Your task to perform on an android device: Search for "razer thresher" on target, select the first entry, and add it to the cart. Image 0: 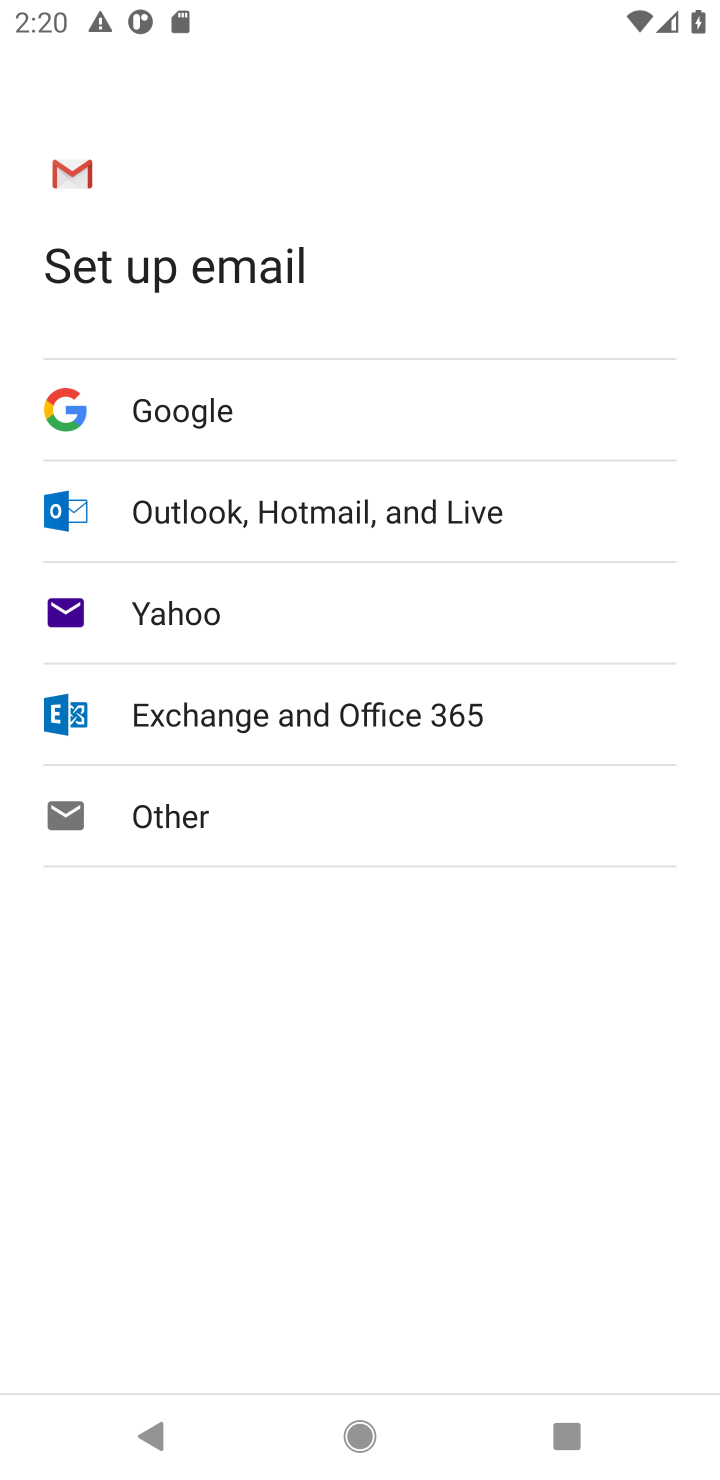
Step 0: press home button
Your task to perform on an android device: Search for "razer thresher" on target, select the first entry, and add it to the cart. Image 1: 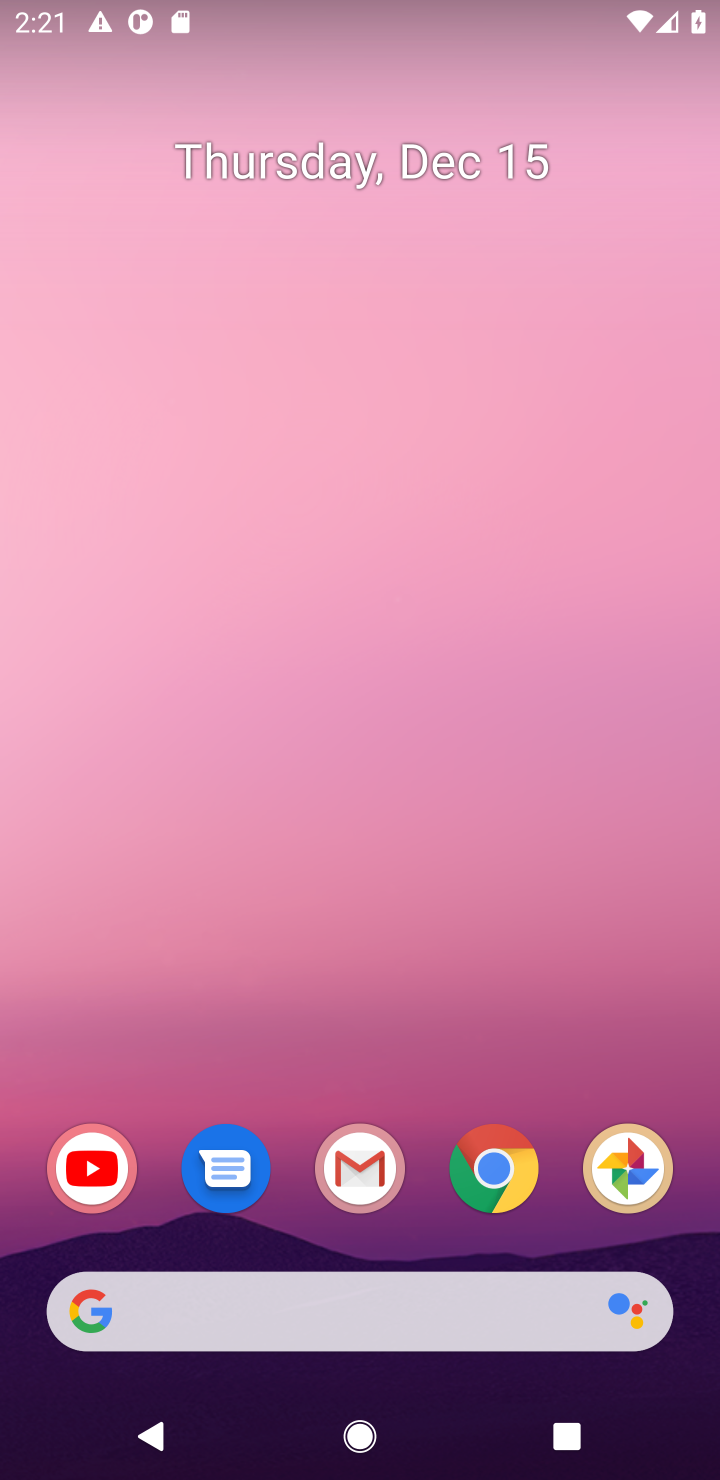
Step 1: click (505, 1194)
Your task to perform on an android device: Search for "razer thresher" on target, select the first entry, and add it to the cart. Image 2: 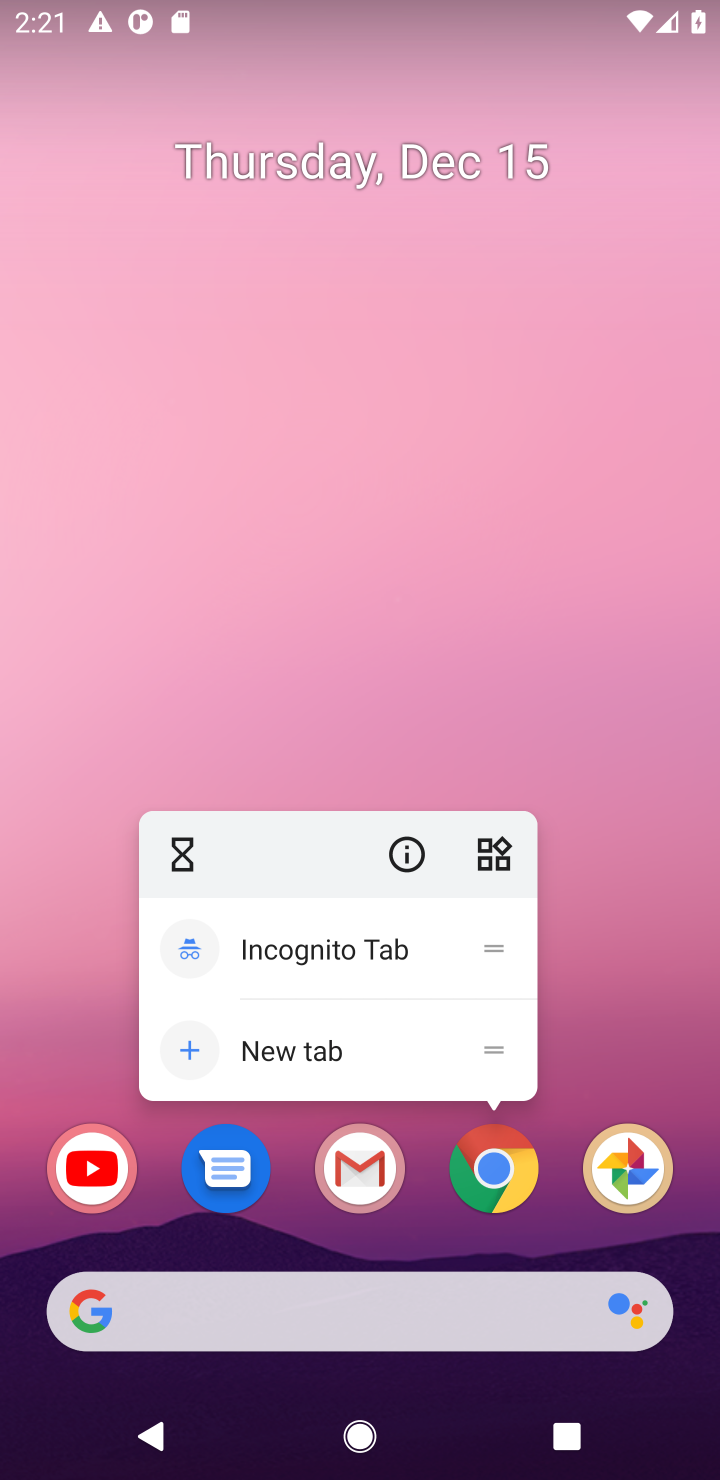
Step 2: click (492, 1180)
Your task to perform on an android device: Search for "razer thresher" on target, select the first entry, and add it to the cart. Image 3: 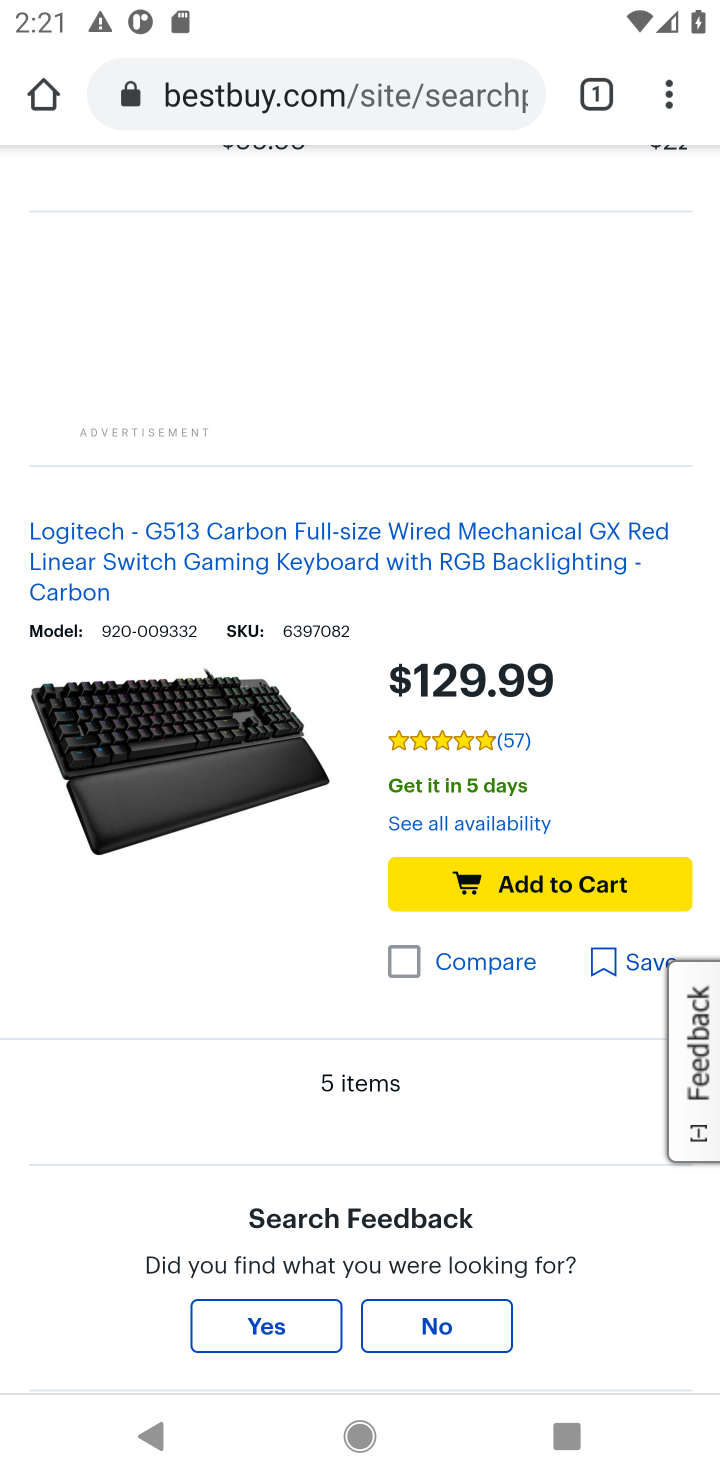
Step 3: click (389, 90)
Your task to perform on an android device: Search for "razer thresher" on target, select the first entry, and add it to the cart. Image 4: 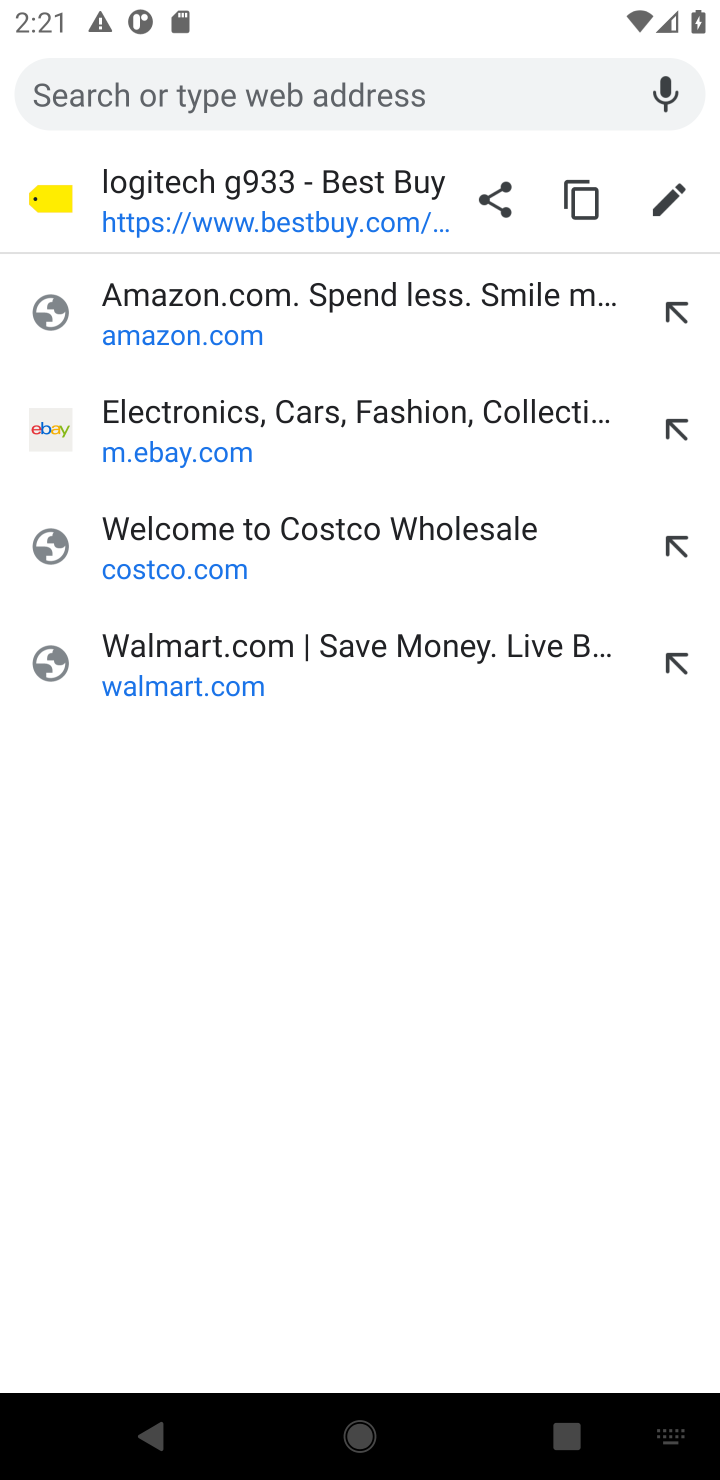
Step 4: press enter
Your task to perform on an android device: Search for "razer thresher" on target, select the first entry, and add it to the cart. Image 5: 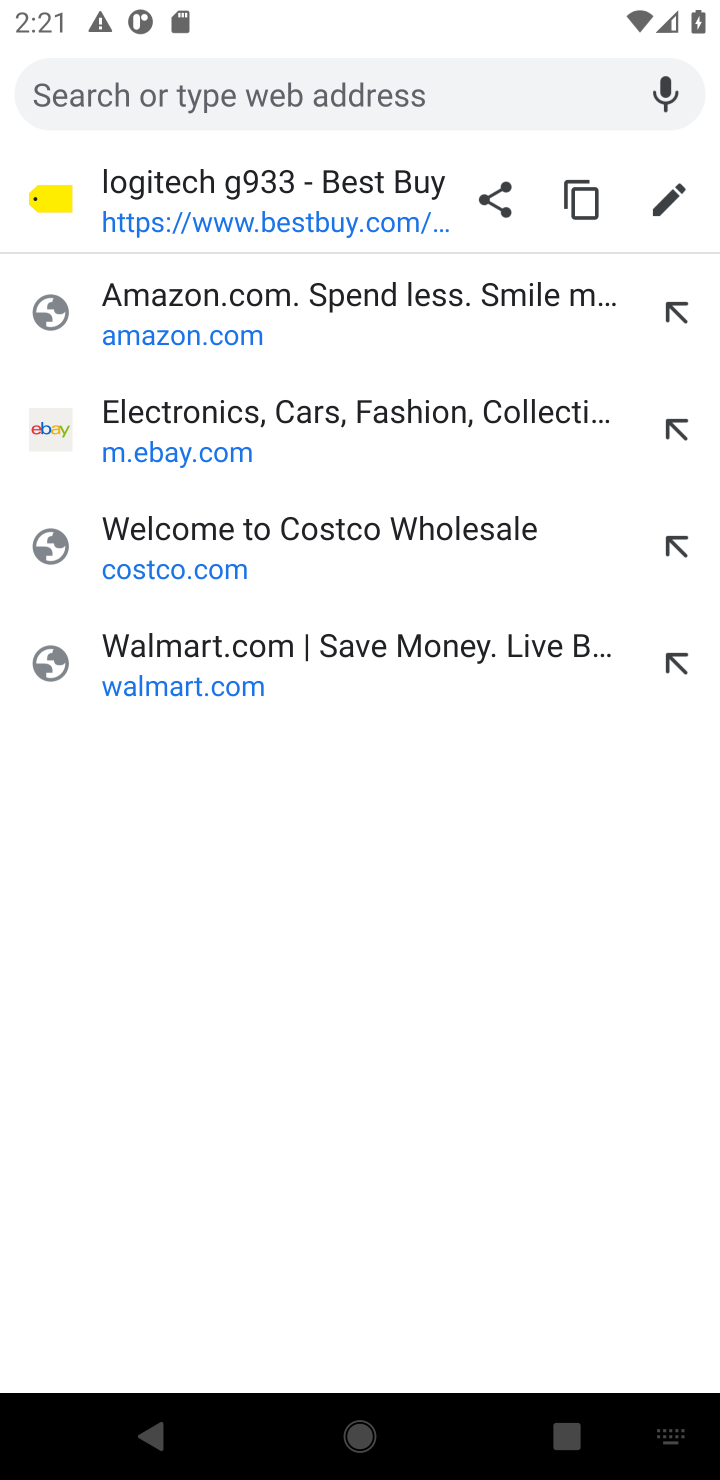
Step 5: type "target"
Your task to perform on an android device: Search for "razer thresher" on target, select the first entry, and add it to the cart. Image 6: 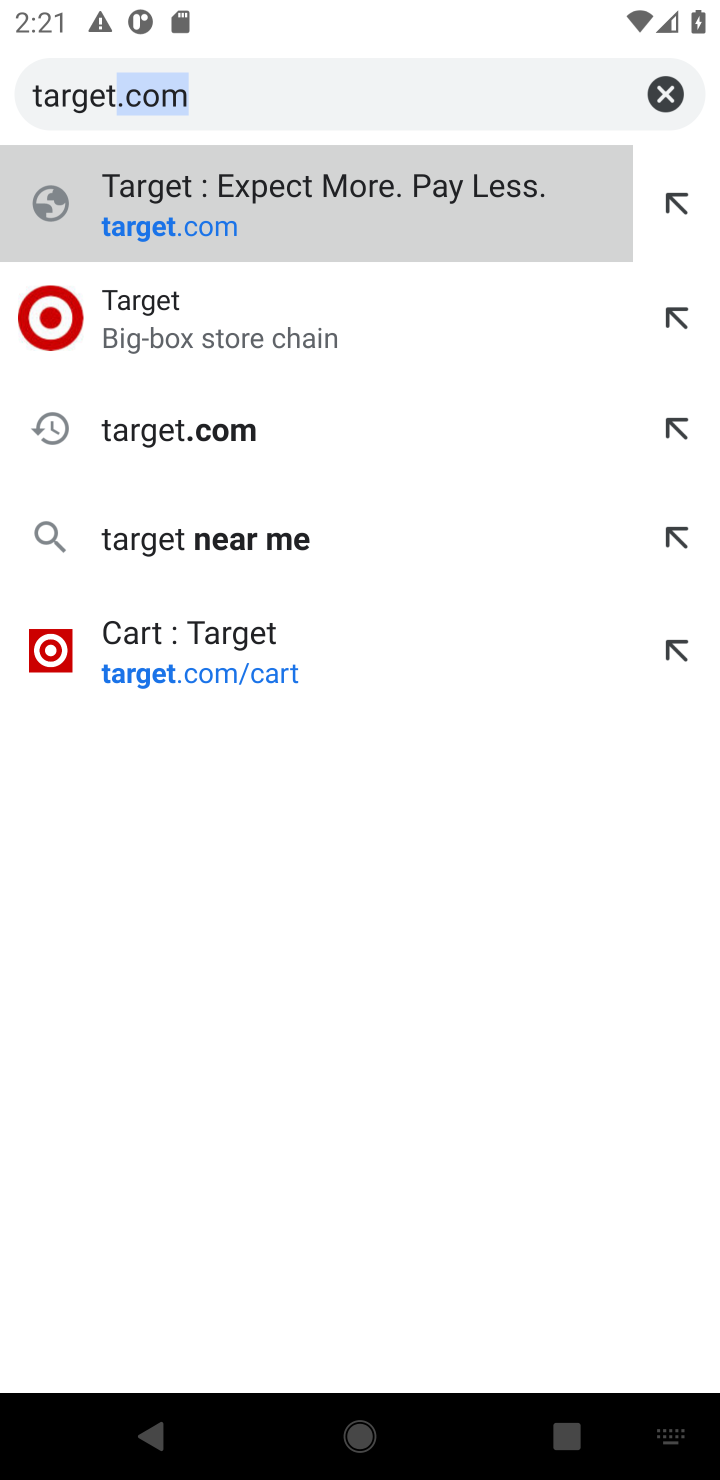
Step 6: click (306, 191)
Your task to perform on an android device: Search for "razer thresher" on target, select the first entry, and add it to the cart. Image 7: 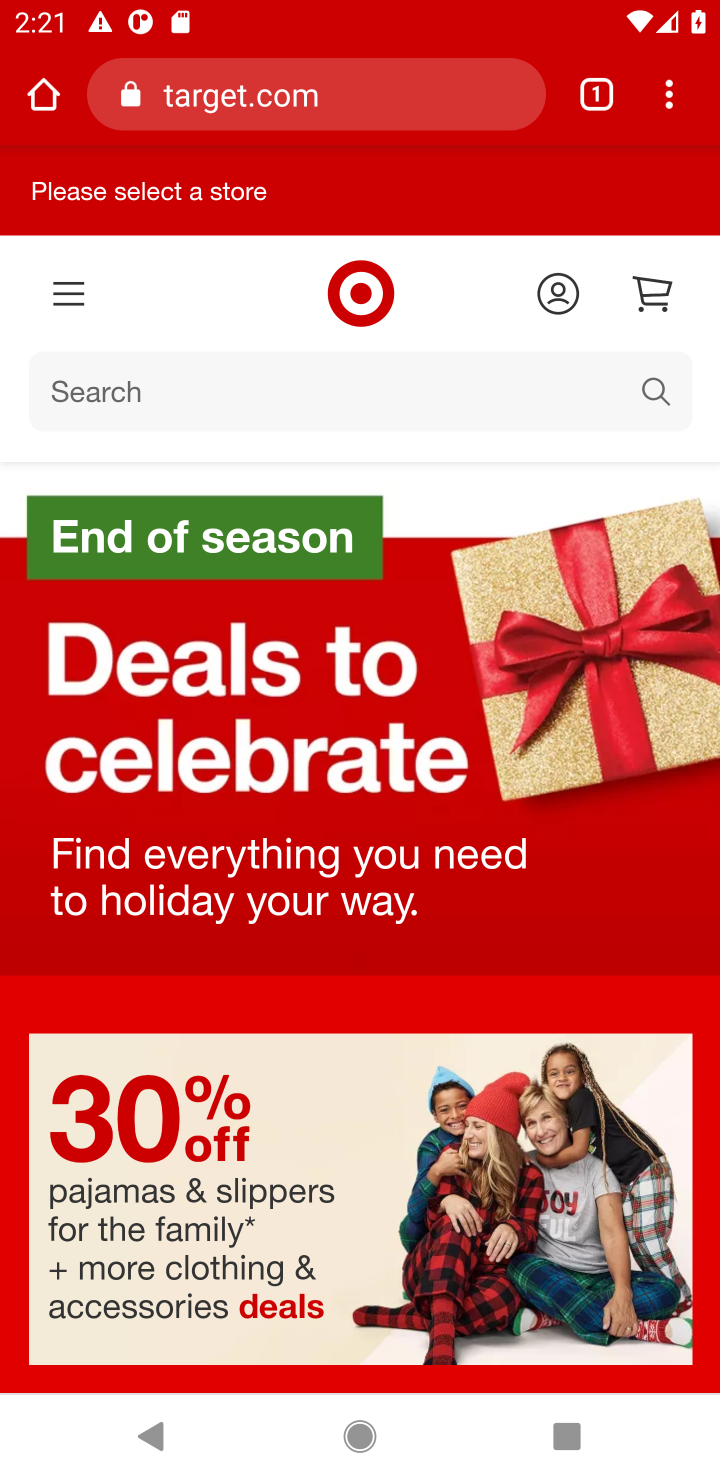
Step 7: click (644, 395)
Your task to perform on an android device: Search for "razer thresher" on target, select the first entry, and add it to the cart. Image 8: 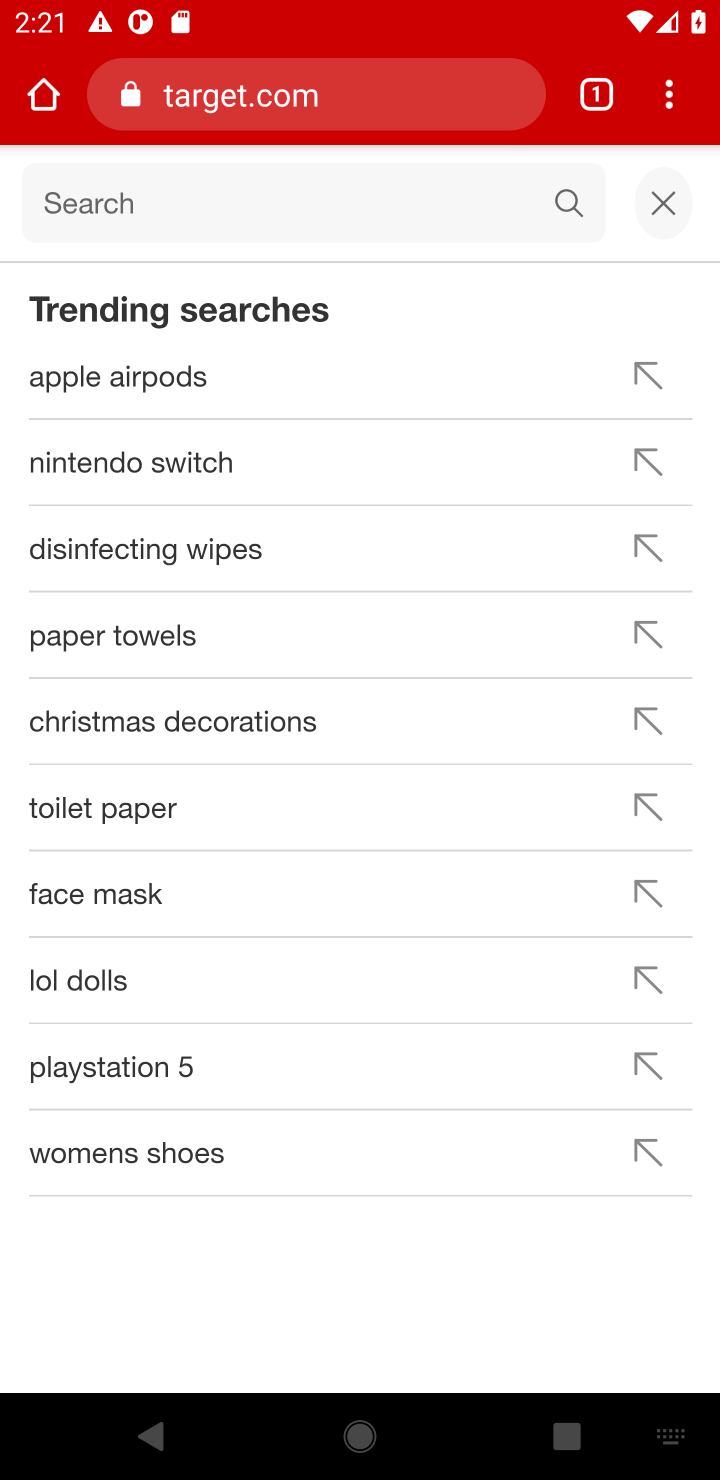
Step 8: press enter
Your task to perform on an android device: Search for "razer thresher" on target, select the first entry, and add it to the cart. Image 9: 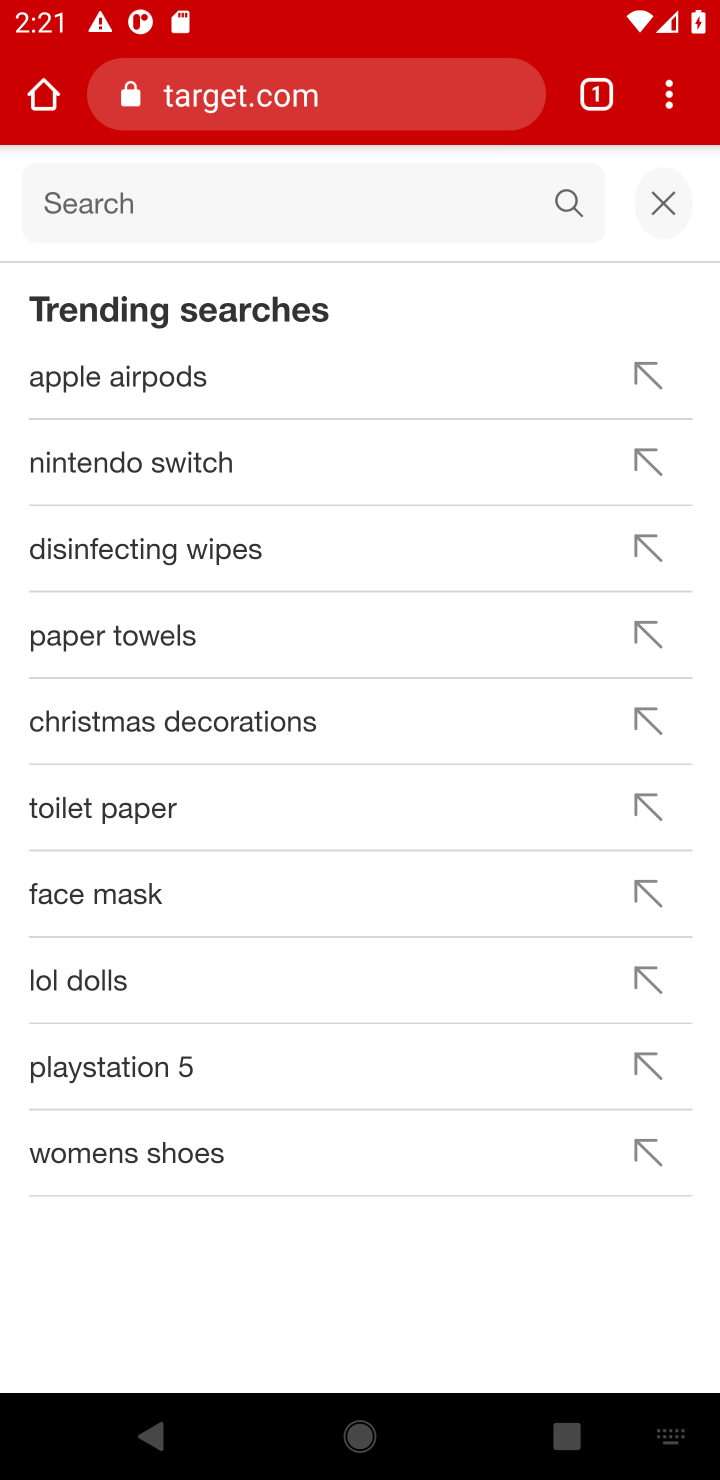
Step 9: type "razer thresher"
Your task to perform on an android device: Search for "razer thresher" on target, select the first entry, and add it to the cart. Image 10: 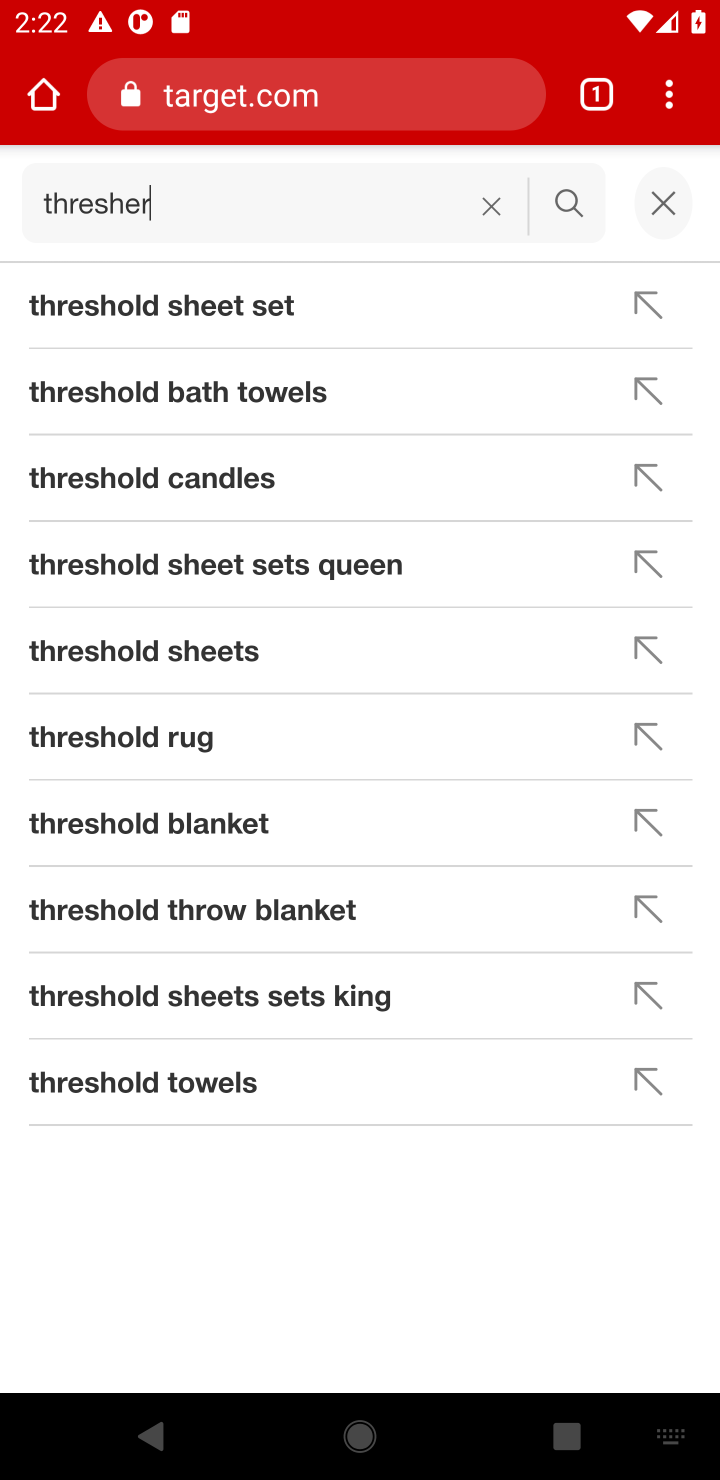
Step 10: click (492, 198)
Your task to perform on an android device: Search for "razer thresher" on target, select the first entry, and add it to the cart. Image 11: 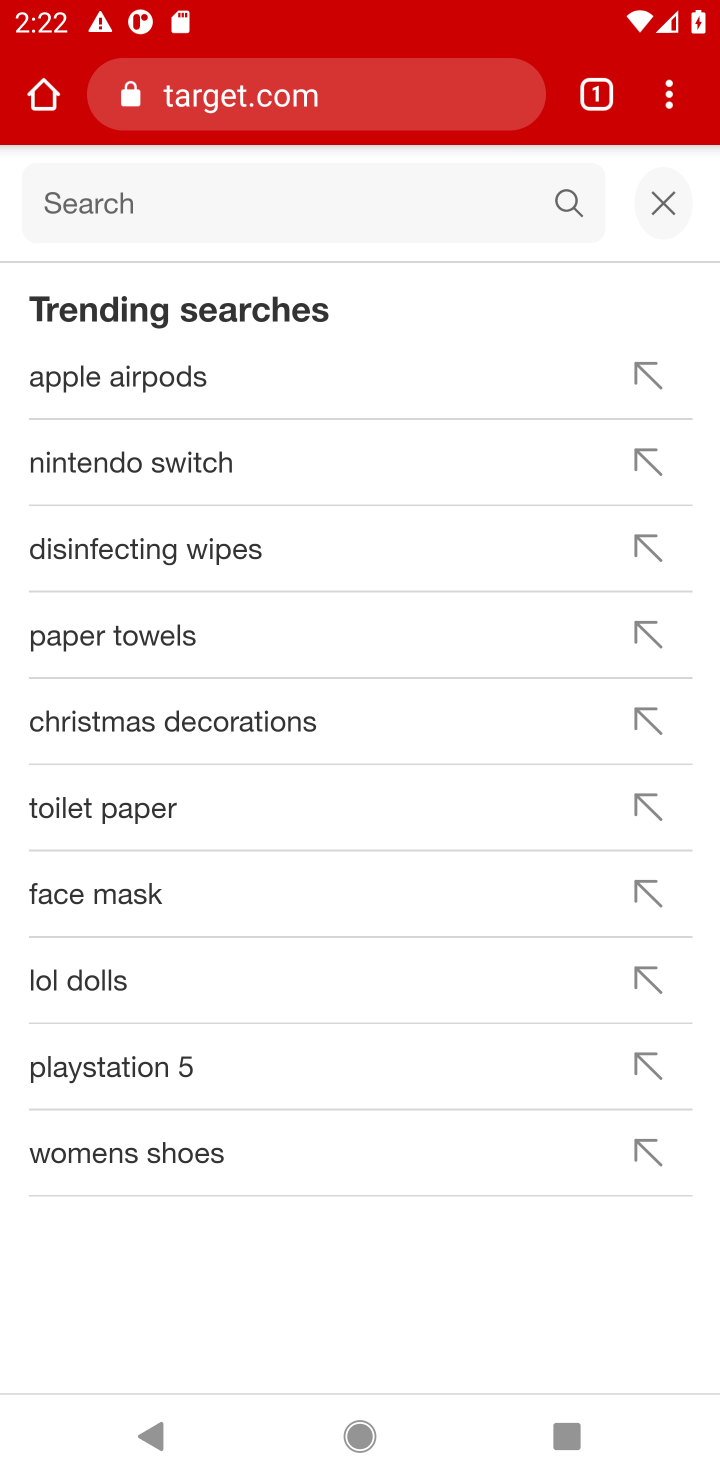
Step 11: click (326, 202)
Your task to perform on an android device: Search for "razer thresher" on target, select the first entry, and add it to the cart. Image 12: 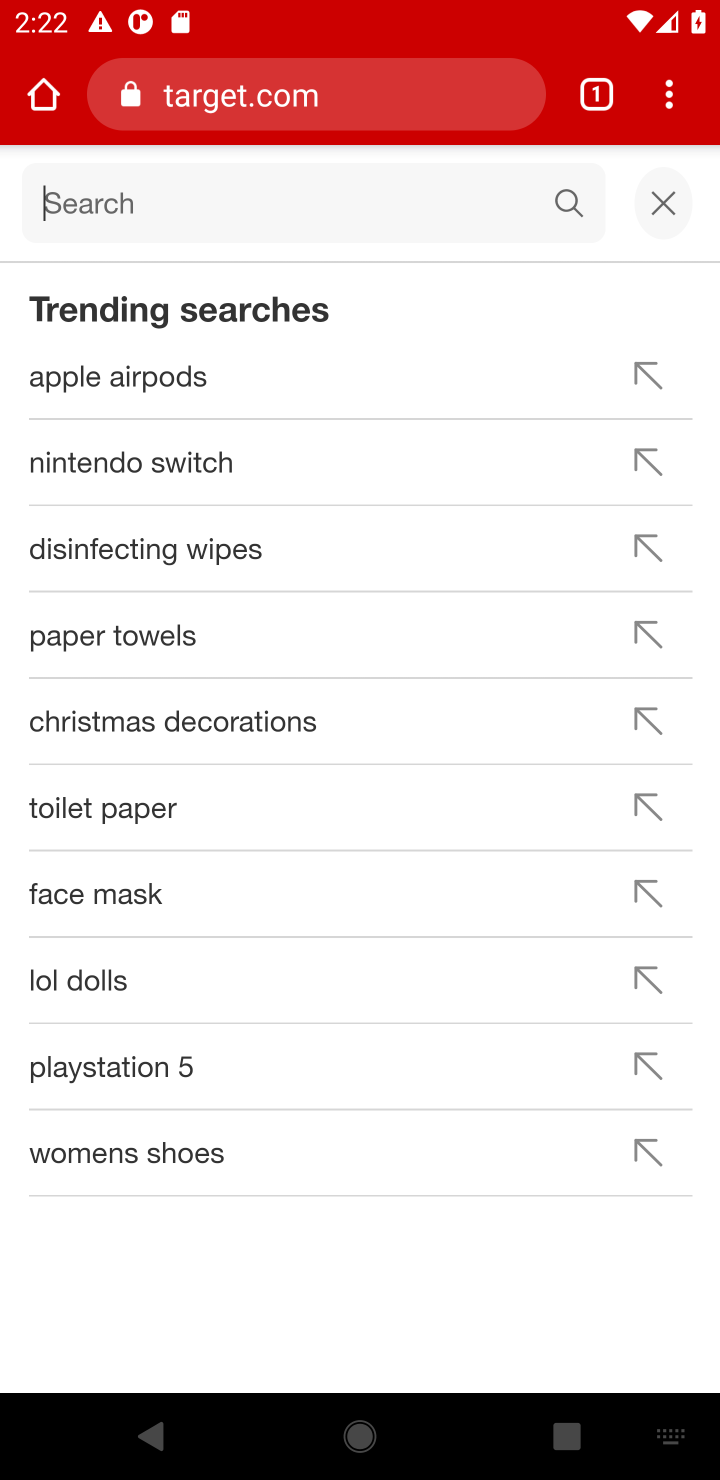
Step 12: press enter
Your task to perform on an android device: Search for "razer thresher" on target, select the first entry, and add it to the cart. Image 13: 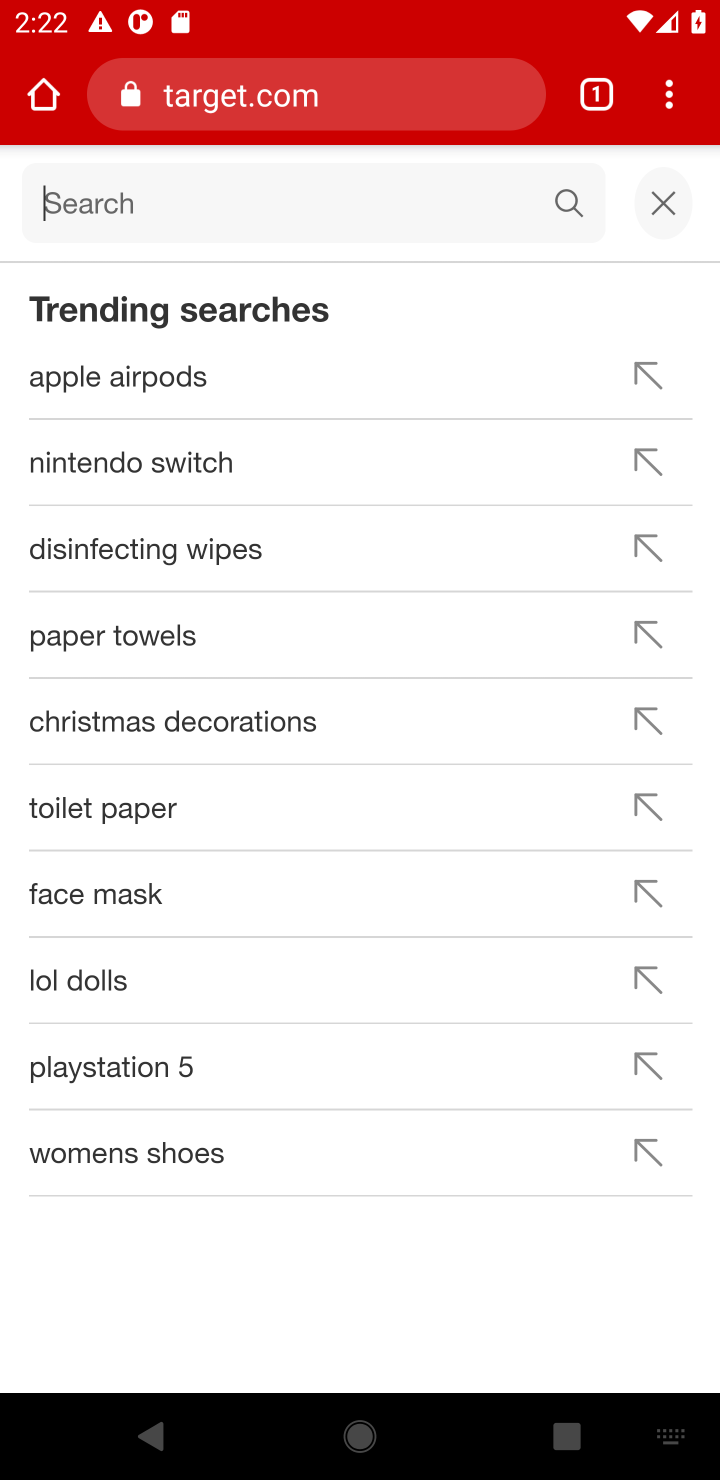
Step 13: type "razer thresher"
Your task to perform on an android device: Search for "razer thresher" on target, select the first entry, and add it to the cart. Image 14: 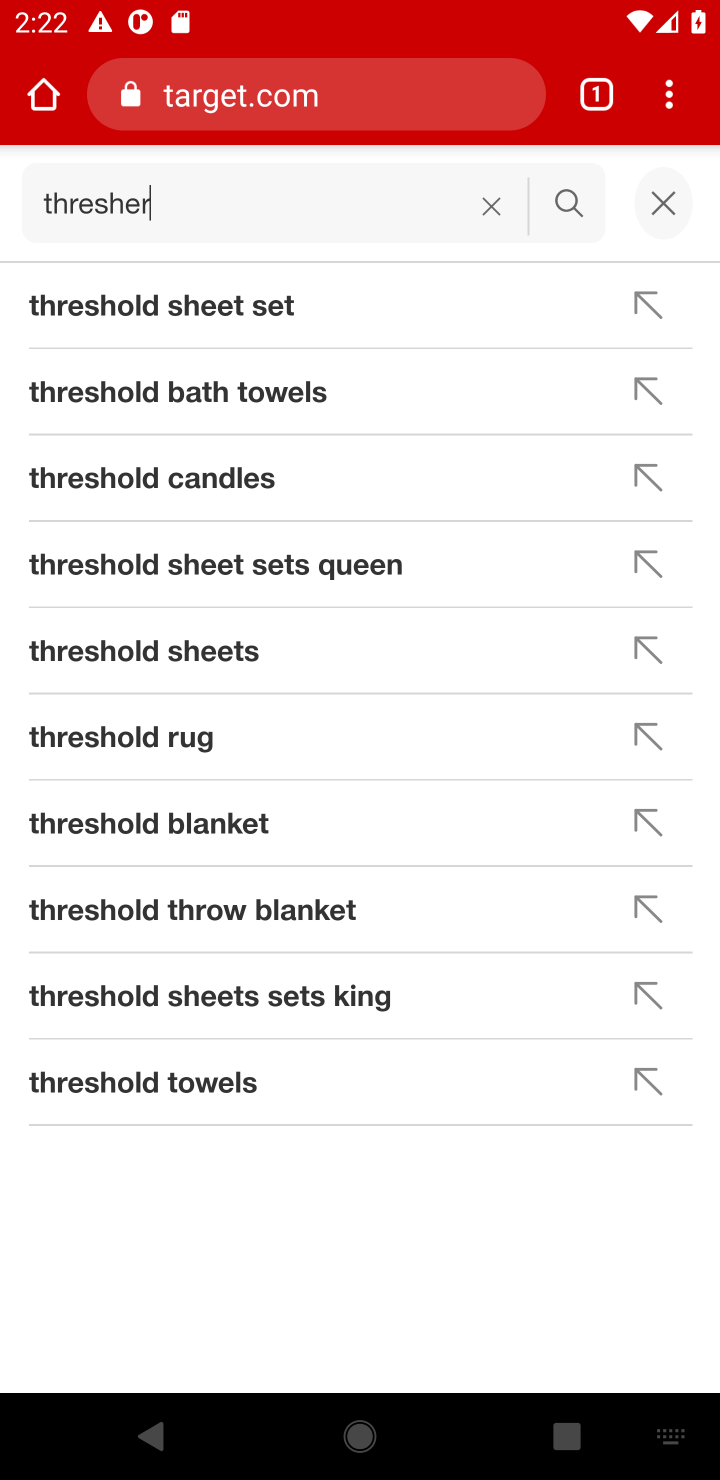
Step 14: click (490, 201)
Your task to perform on an android device: Search for "razer thresher" on target, select the first entry, and add it to the cart. Image 15: 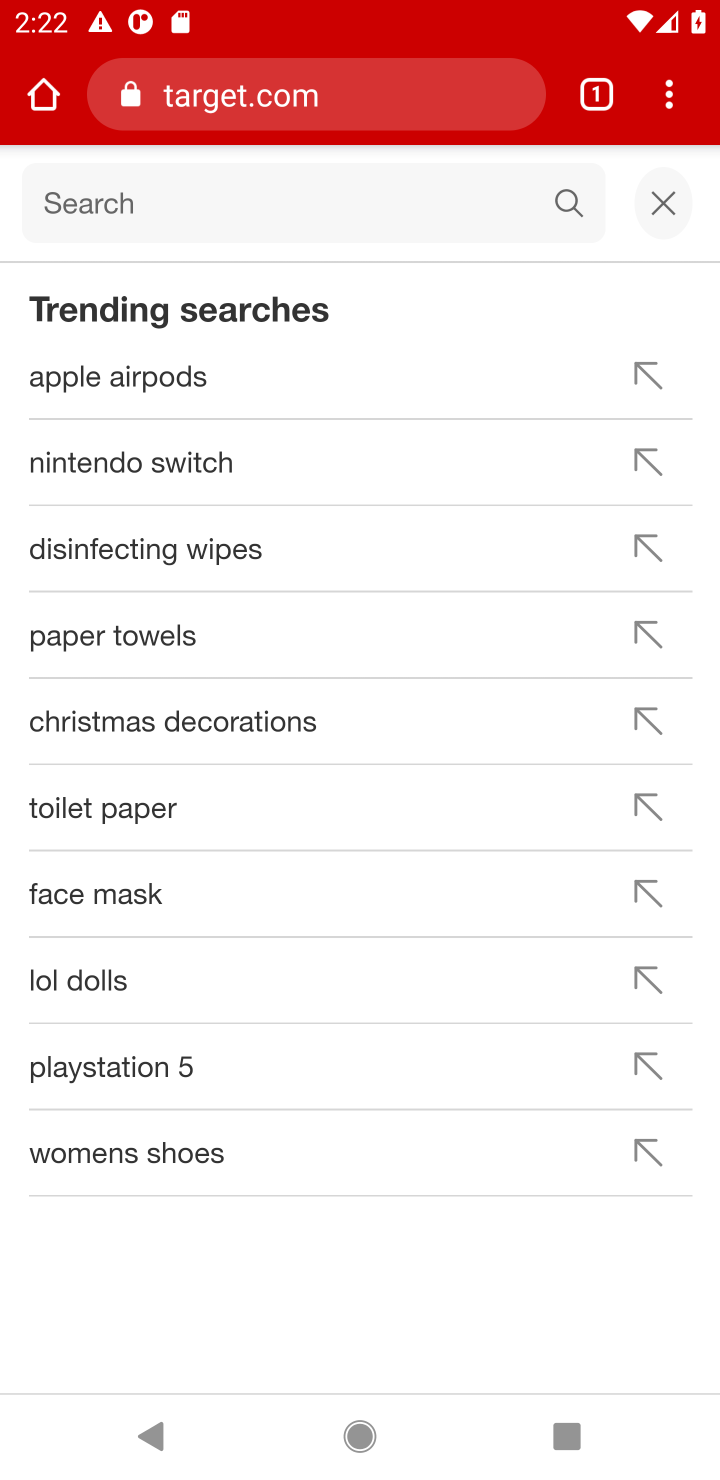
Step 15: click (427, 196)
Your task to perform on an android device: Search for "razer thresher" on target, select the first entry, and add it to the cart. Image 16: 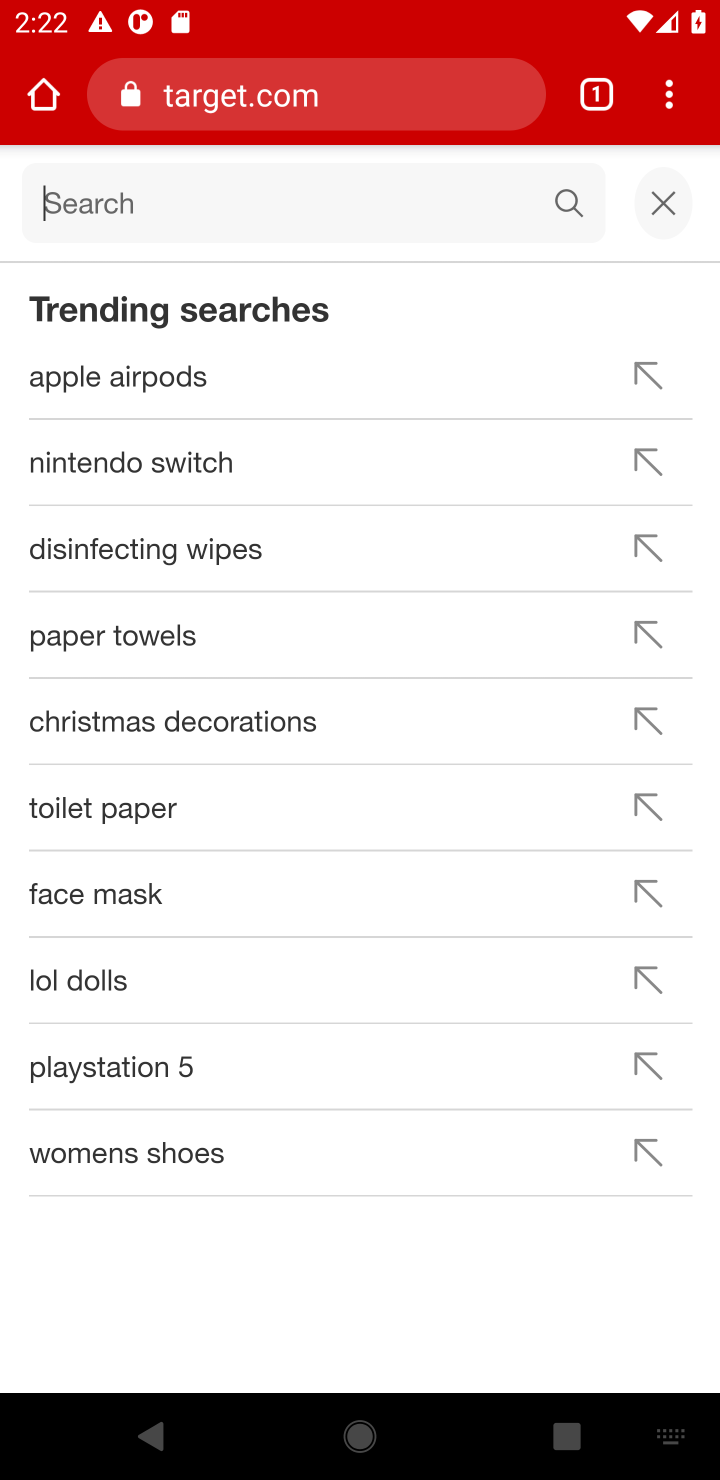
Step 16: press enter
Your task to perform on an android device: Search for "razer thresher" on target, select the first entry, and add it to the cart. Image 17: 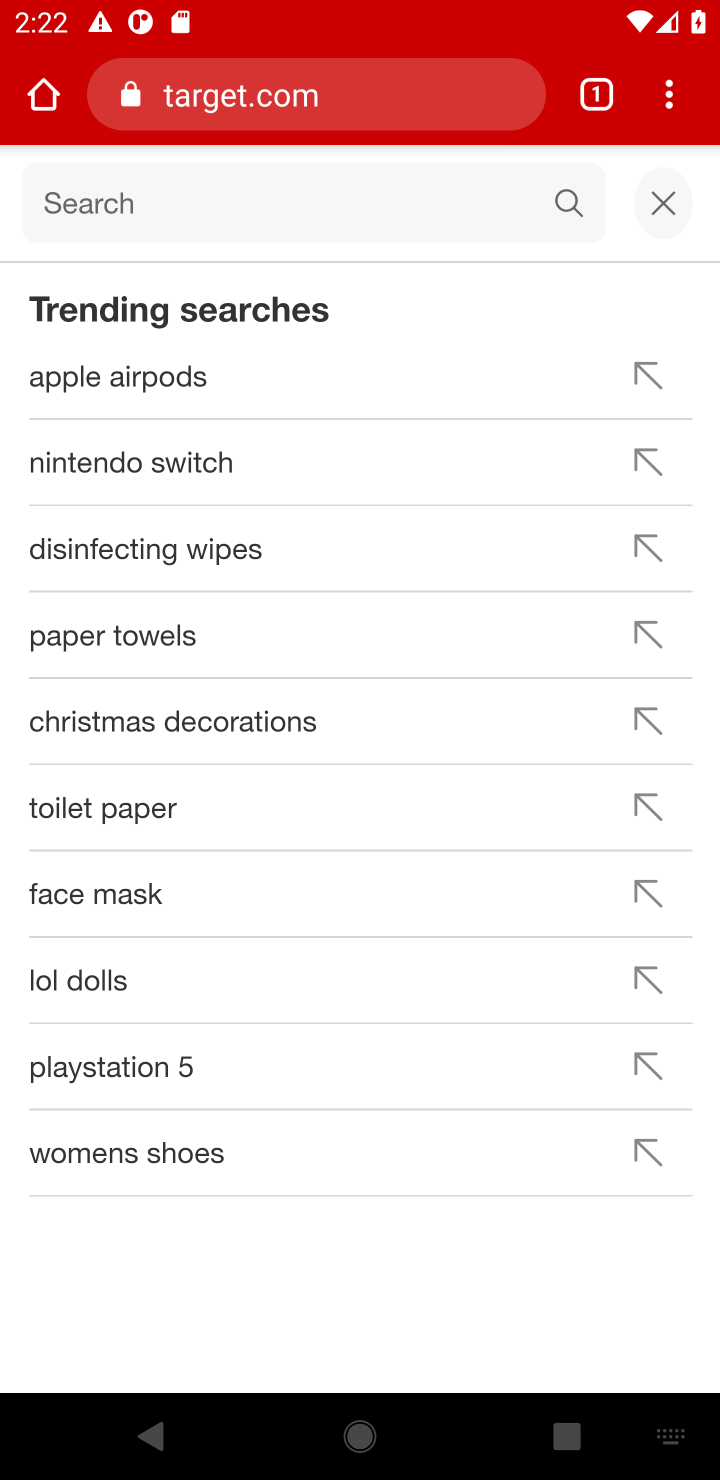
Step 17: type "razer thresher"
Your task to perform on an android device: Search for "razer thresher" on target, select the first entry, and add it to the cart. Image 18: 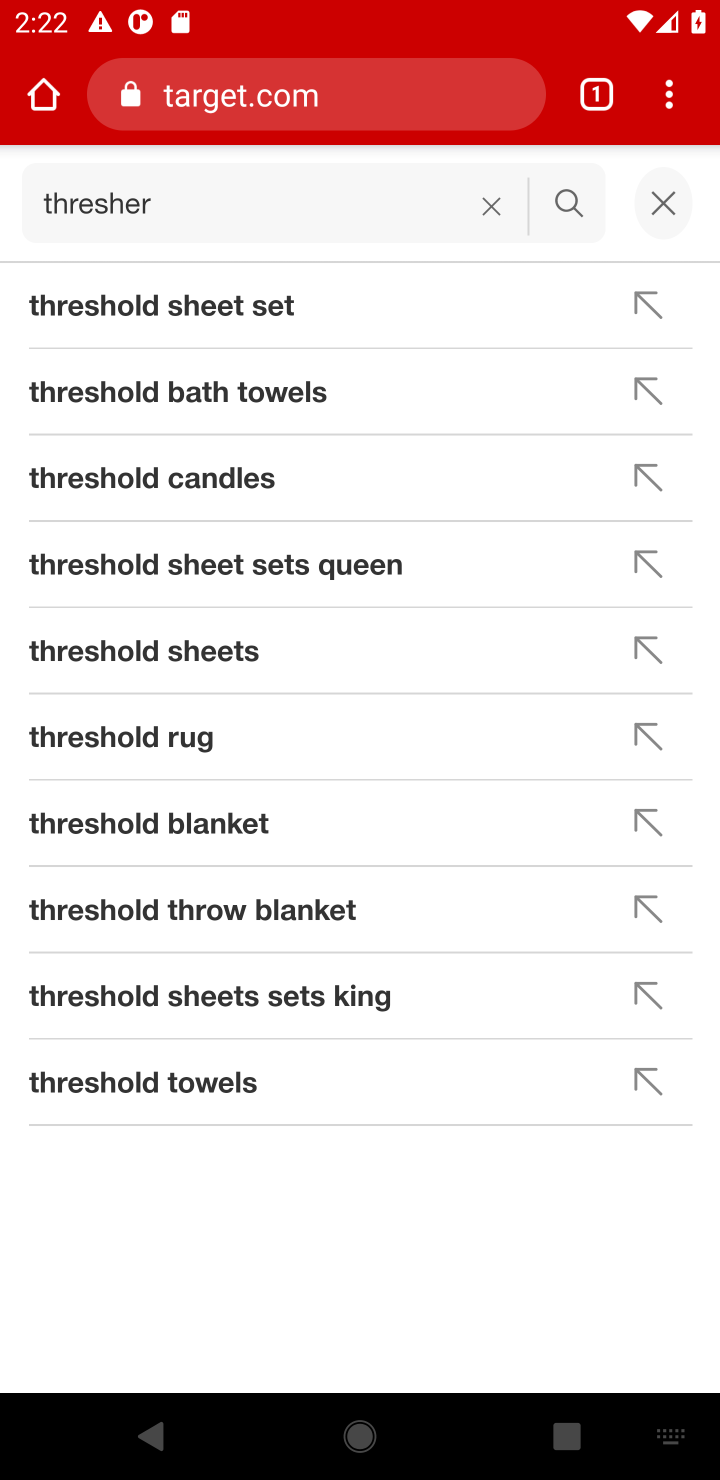
Step 18: click (494, 207)
Your task to perform on an android device: Search for "razer thresher" on target, select the first entry, and add it to the cart. Image 19: 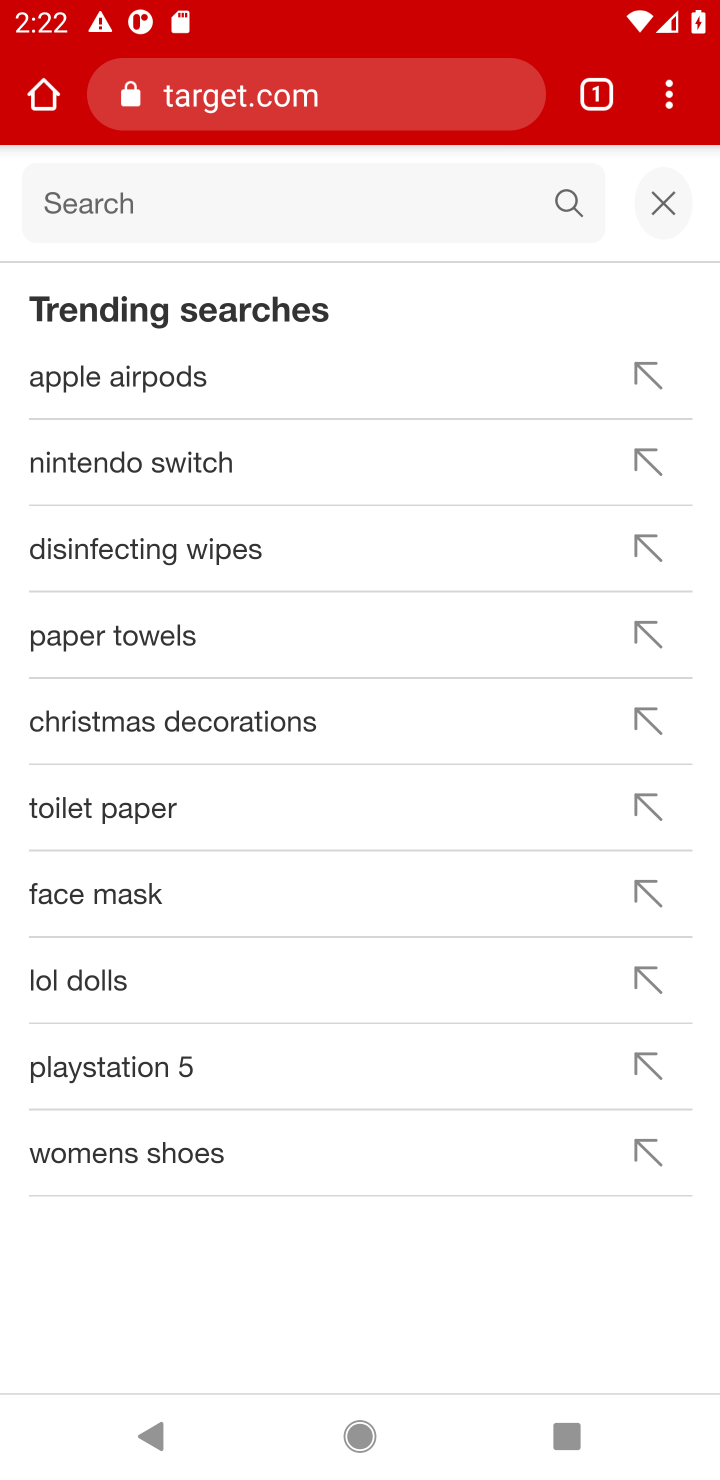
Step 19: drag from (200, 1448) to (255, 1057)
Your task to perform on an android device: Search for "razer thresher" on target, select the first entry, and add it to the cart. Image 20: 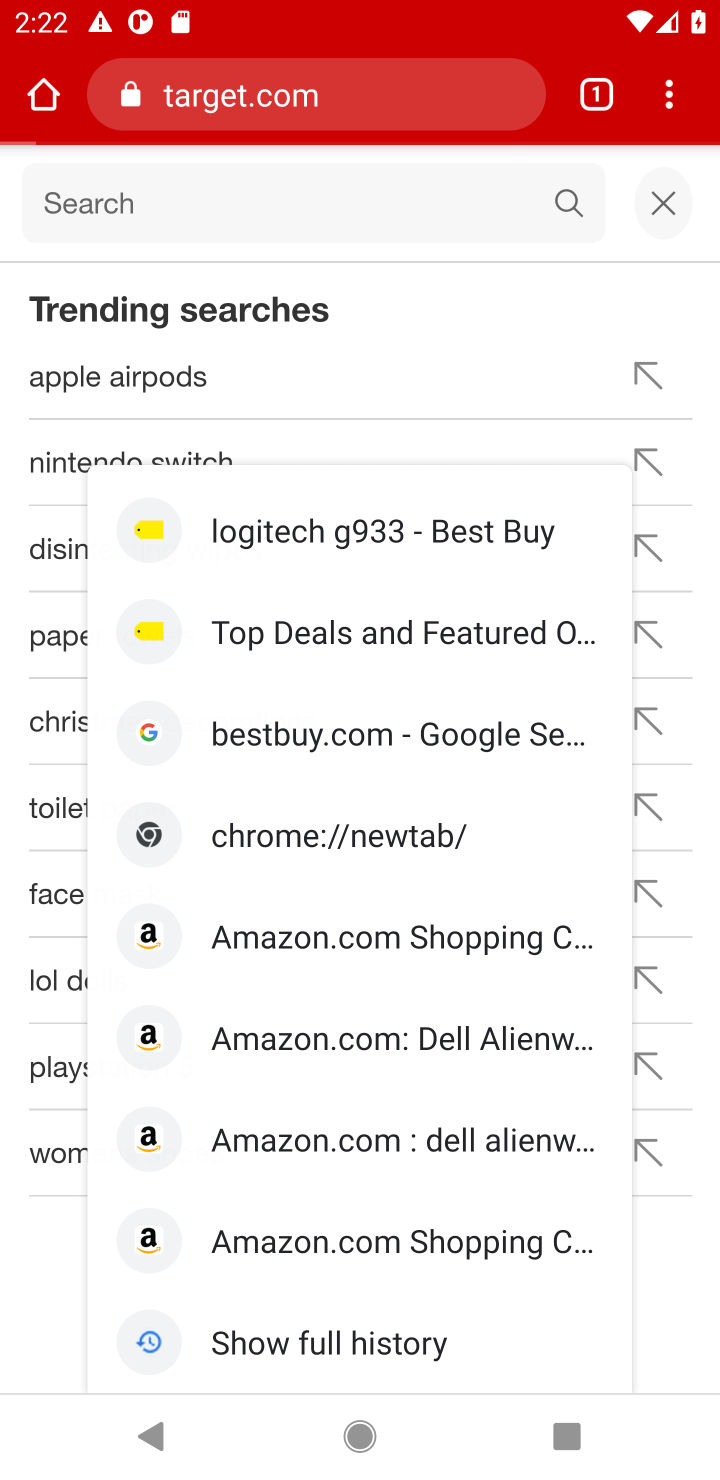
Step 20: click (573, 198)
Your task to perform on an android device: Search for "razer thresher" on target, select the first entry, and add it to the cart. Image 21: 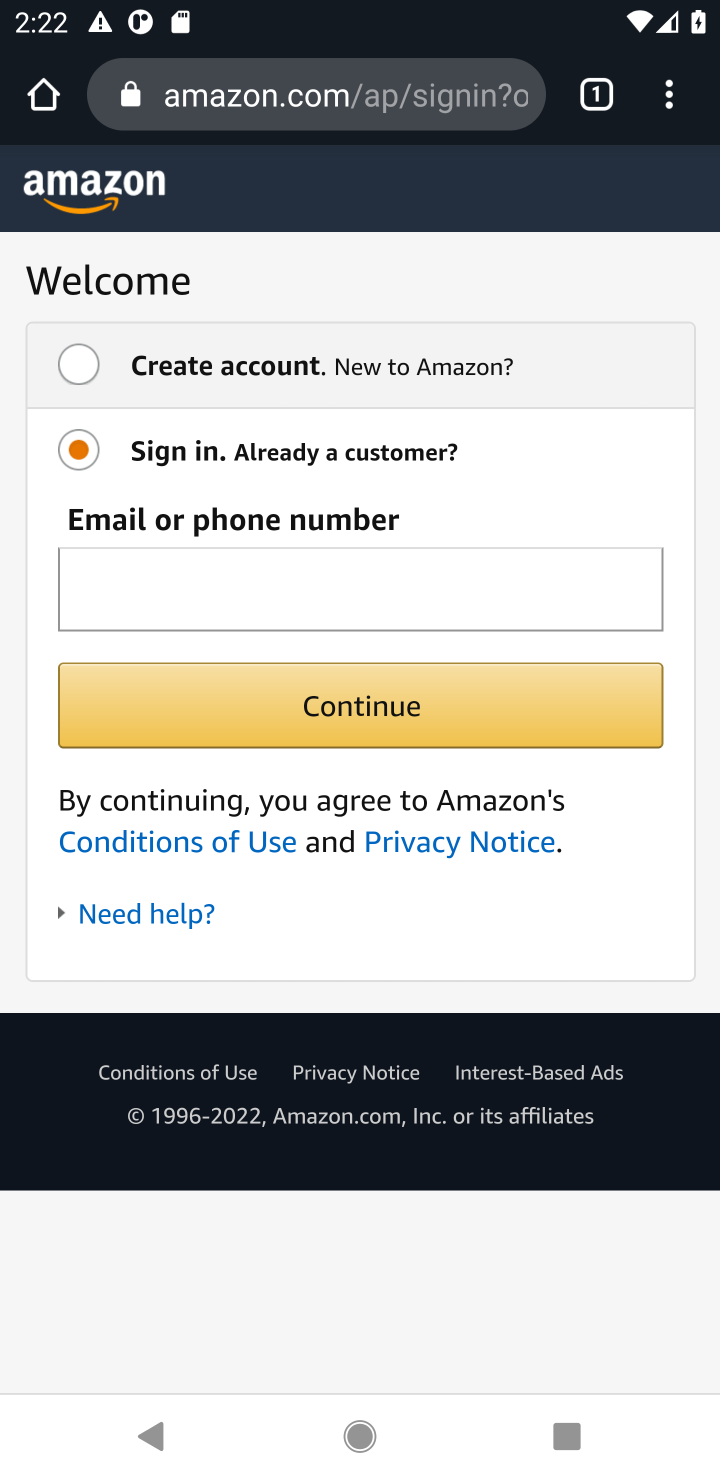
Step 21: press back button
Your task to perform on an android device: Search for "razer thresher" on target, select the first entry, and add it to the cart. Image 22: 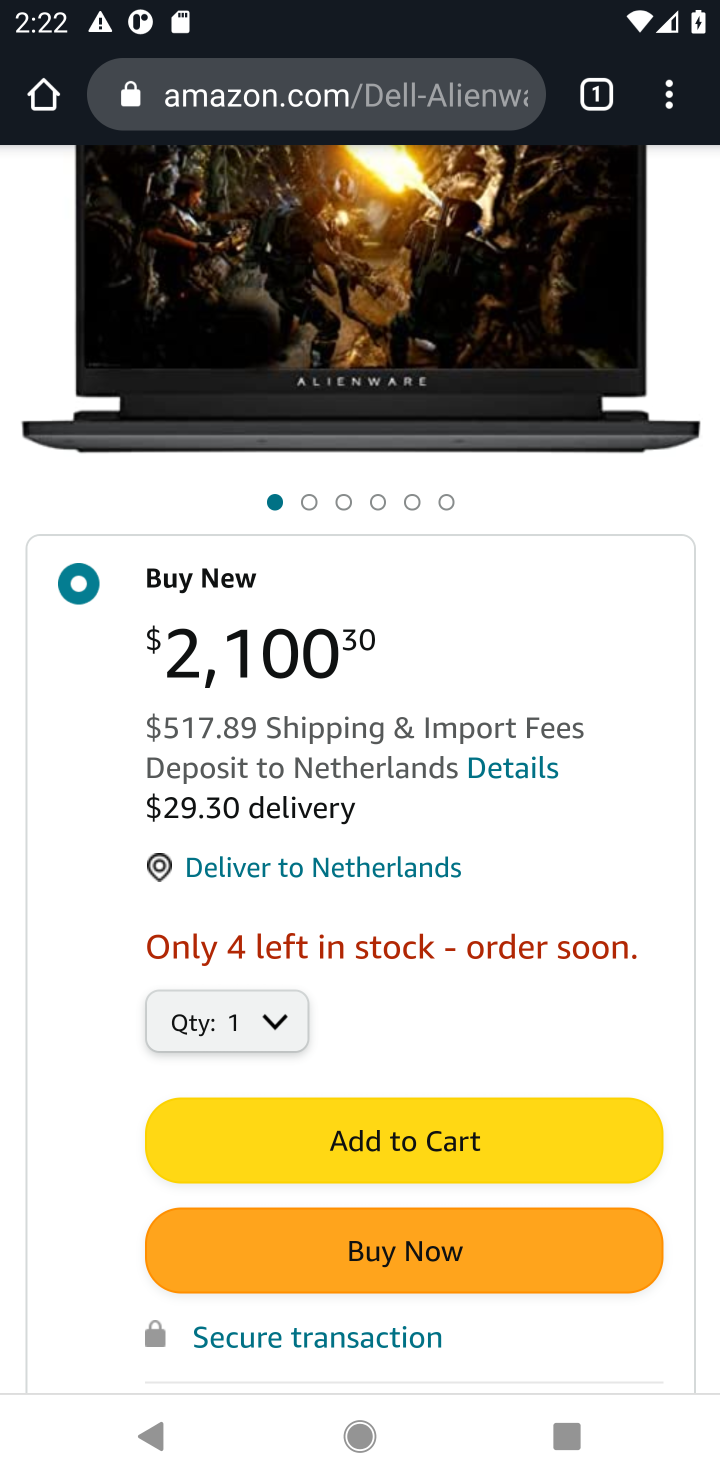
Step 22: click (366, 77)
Your task to perform on an android device: Search for "razer thresher" on target, select the first entry, and add it to the cart. Image 23: 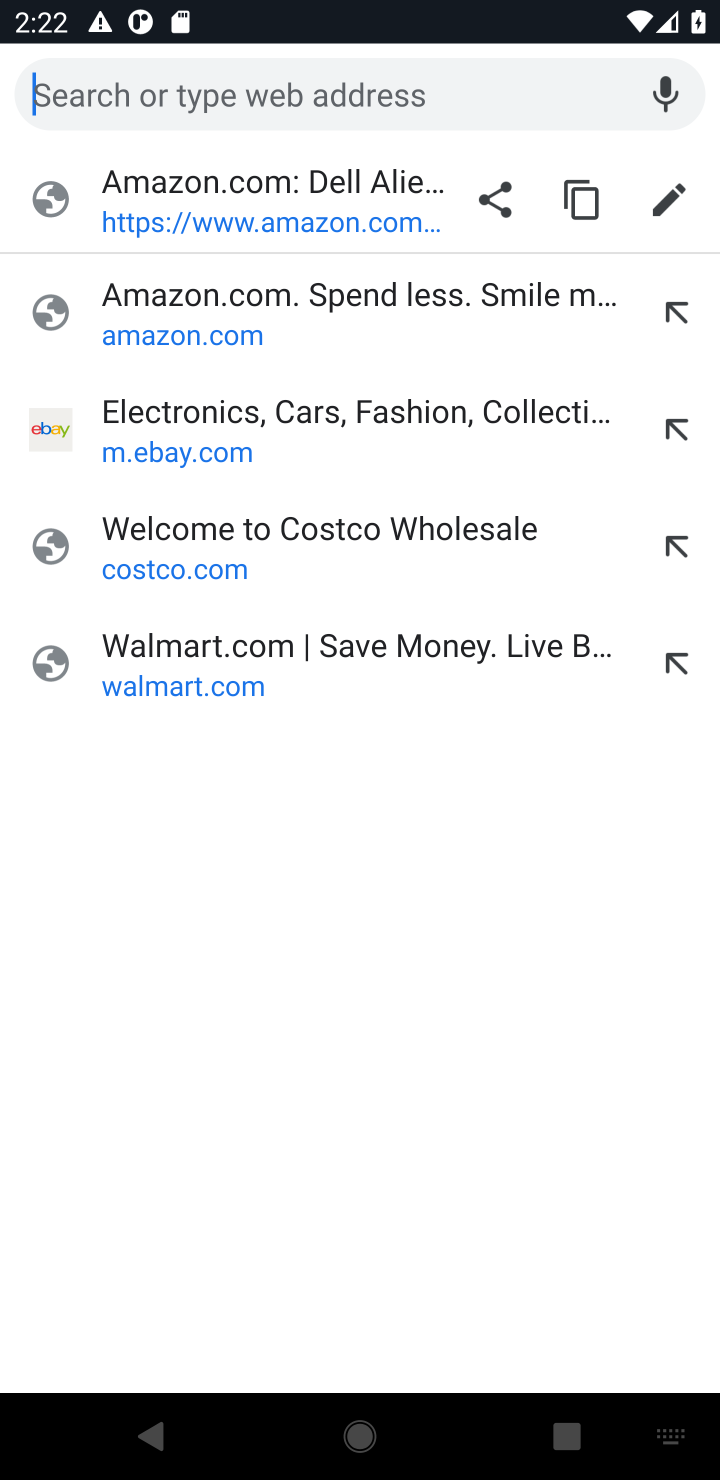
Step 23: press back button
Your task to perform on an android device: Search for "razer thresher" on target, select the first entry, and add it to the cart. Image 24: 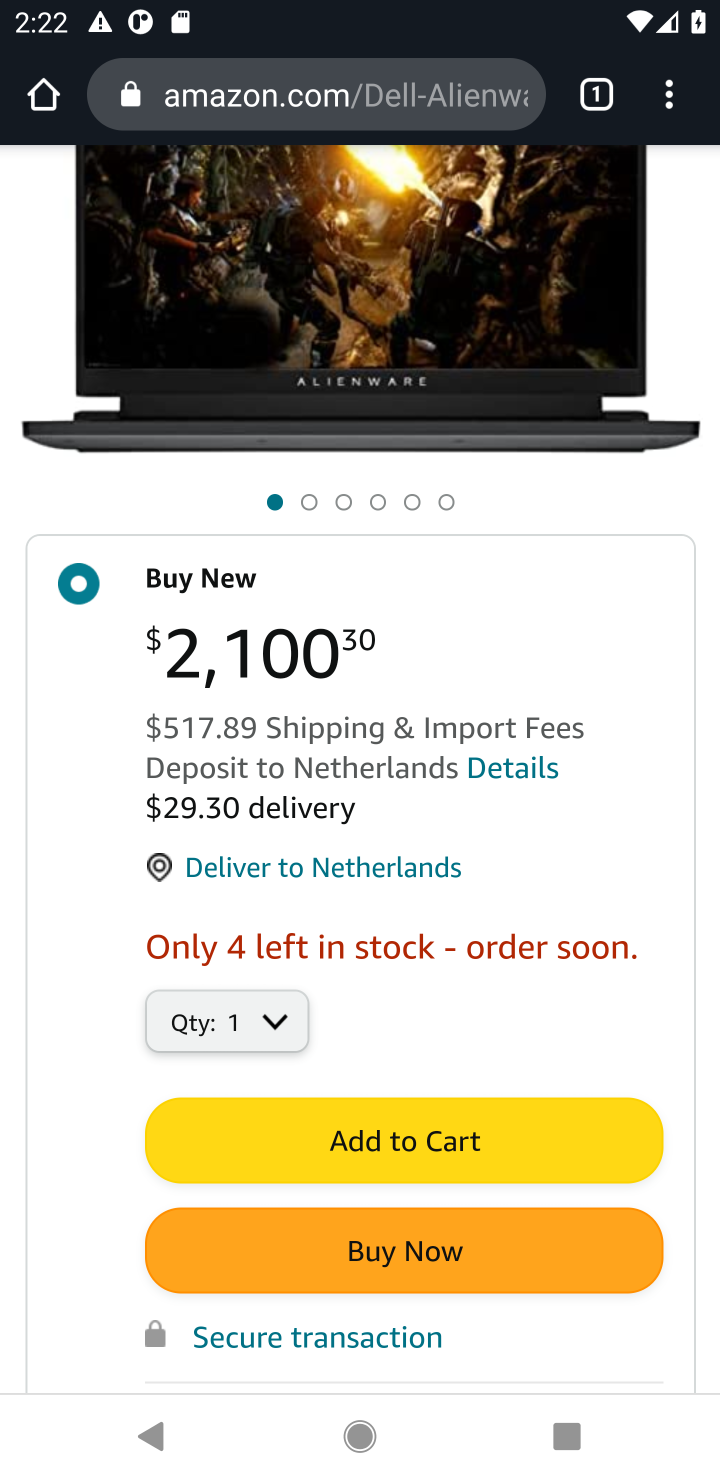
Step 24: click (34, 101)
Your task to perform on an android device: Search for "razer thresher" on target, select the first entry, and add it to the cart. Image 25: 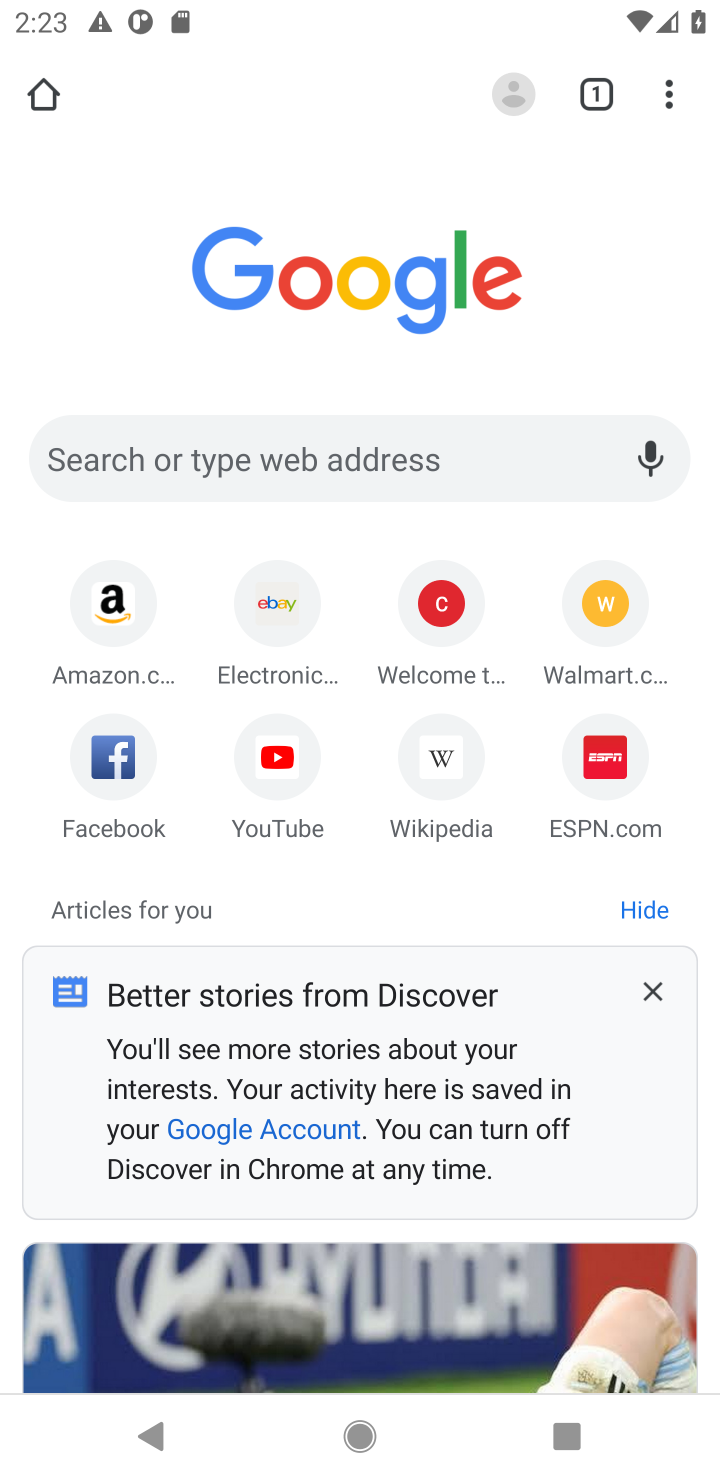
Step 25: click (440, 459)
Your task to perform on an android device: Search for "razer thresher" on target, select the first entry, and add it to the cart. Image 26: 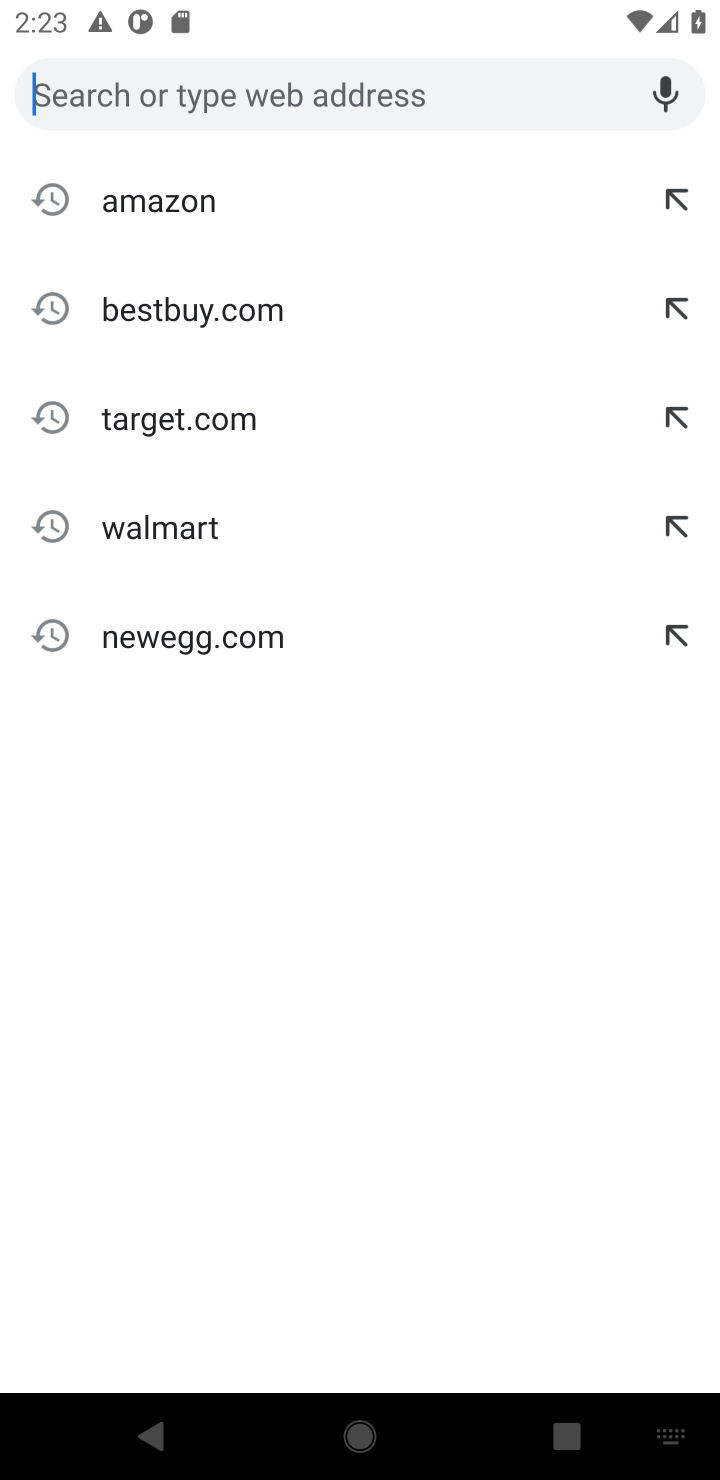
Step 26: click (177, 413)
Your task to perform on an android device: Search for "razer thresher" on target, select the first entry, and add it to the cart. Image 27: 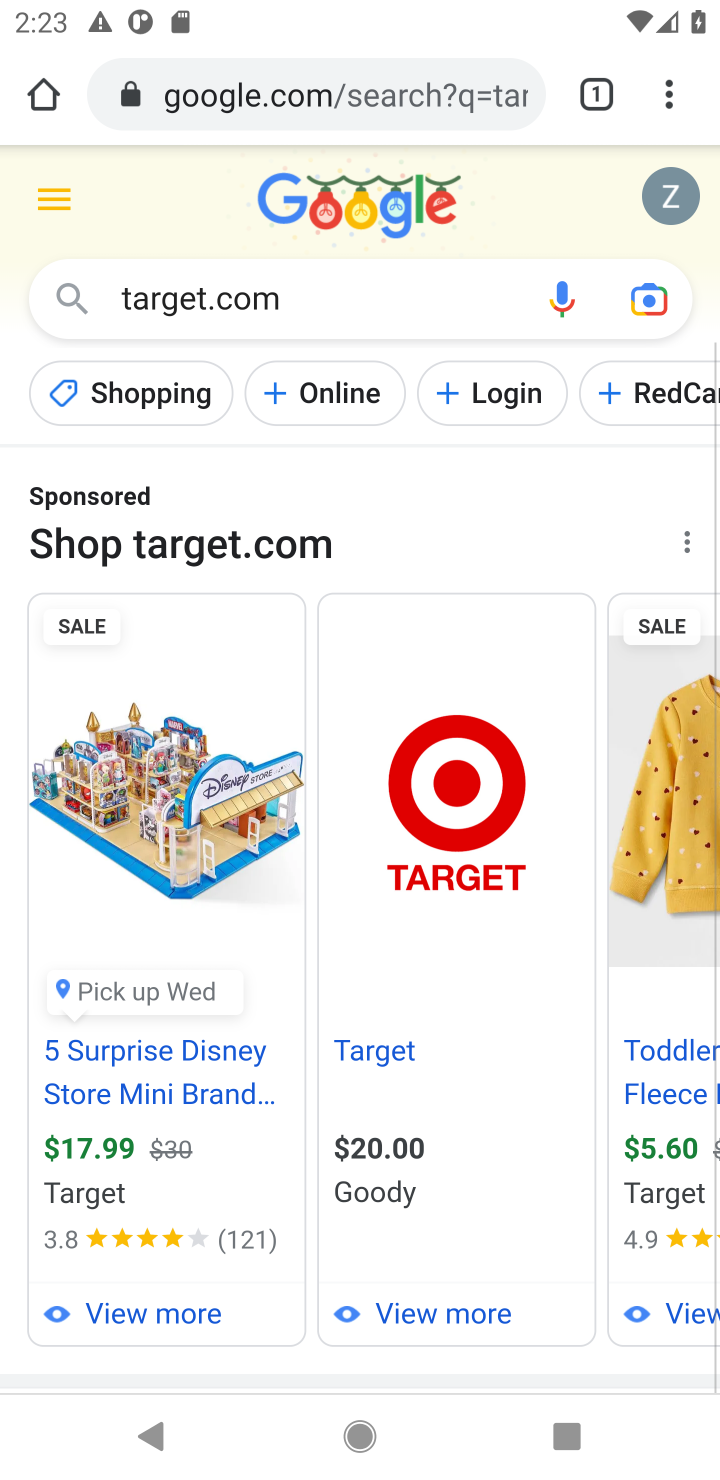
Step 27: drag from (296, 926) to (170, 452)
Your task to perform on an android device: Search for "razer thresher" on target, select the first entry, and add it to the cart. Image 28: 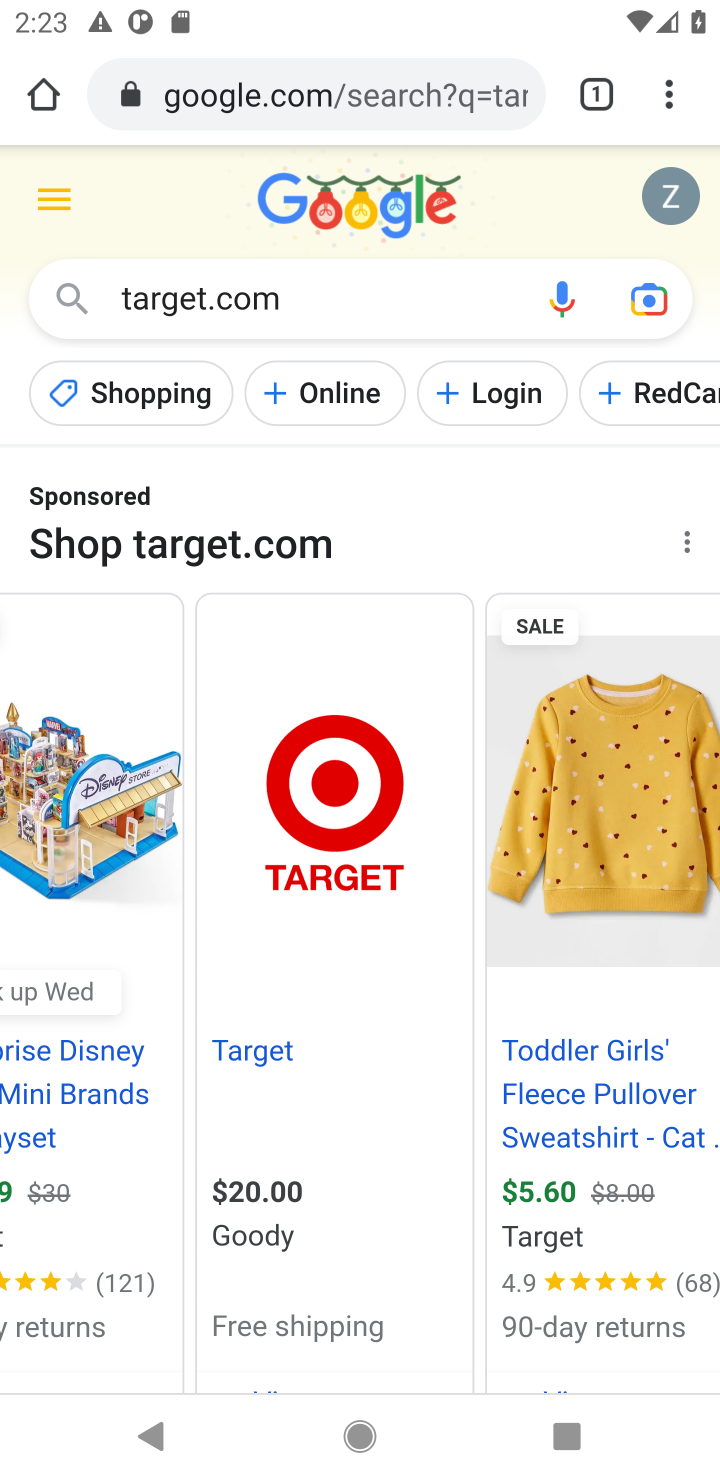
Step 28: drag from (105, 1087) to (243, 876)
Your task to perform on an android device: Search for "razer thresher" on target, select the first entry, and add it to the cart. Image 29: 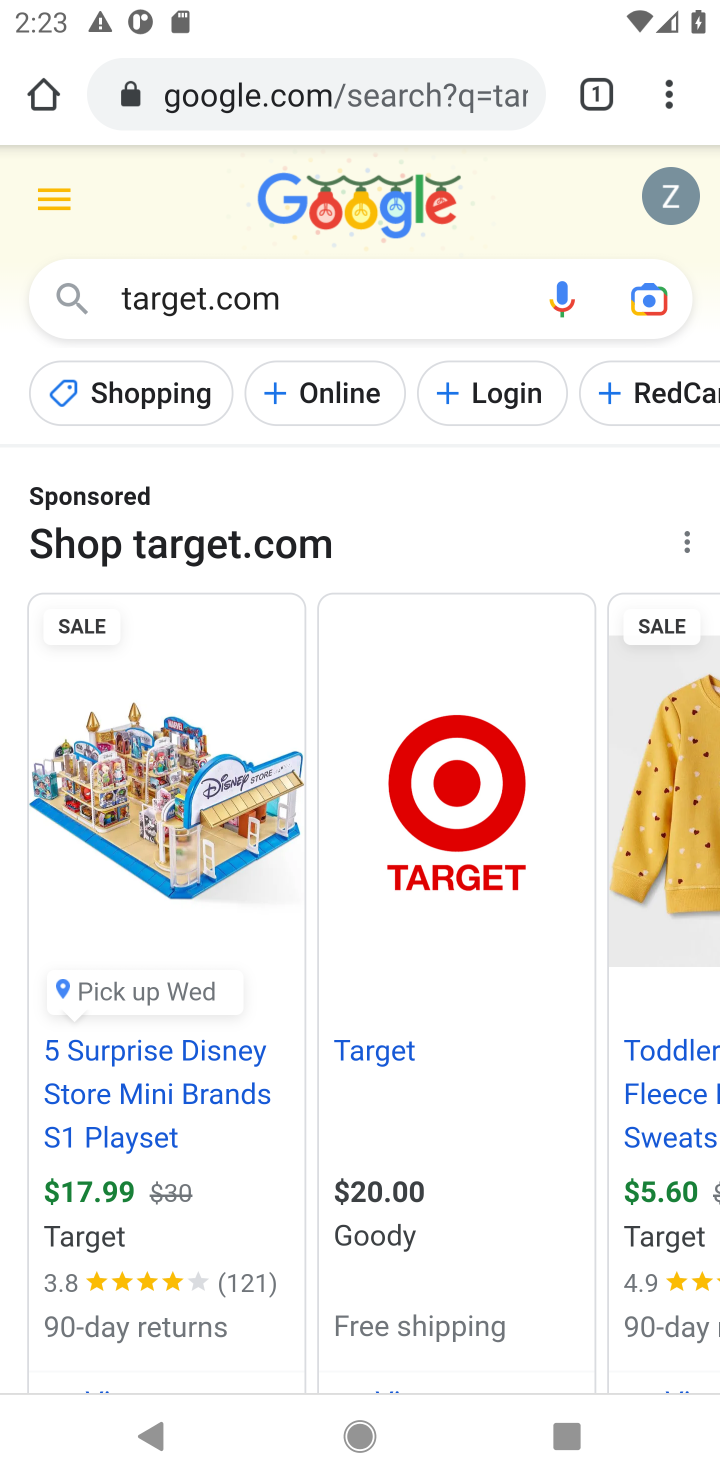
Step 29: drag from (183, 1080) to (111, 812)
Your task to perform on an android device: Search for "razer thresher" on target, select the first entry, and add it to the cart. Image 30: 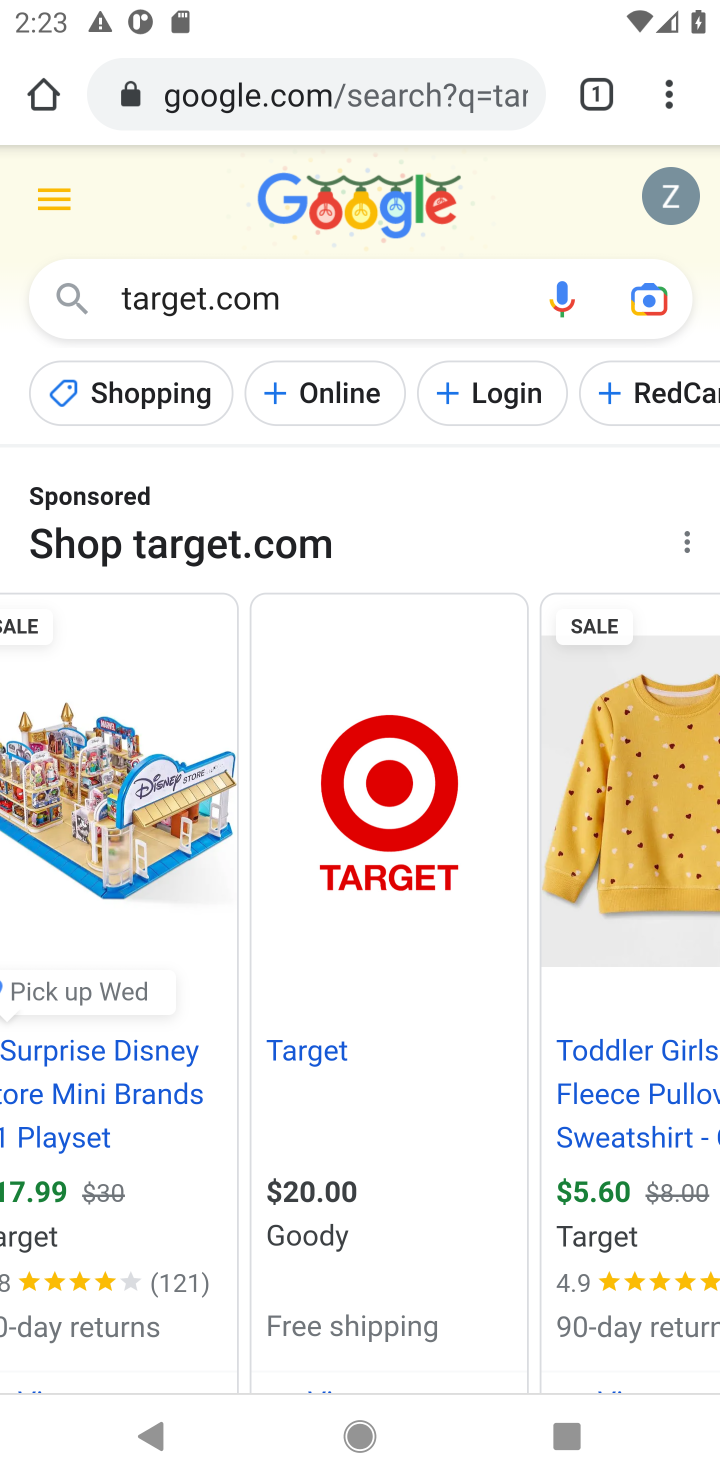
Step 30: drag from (153, 1000) to (691, 398)
Your task to perform on an android device: Search for "razer thresher" on target, select the first entry, and add it to the cart. Image 31: 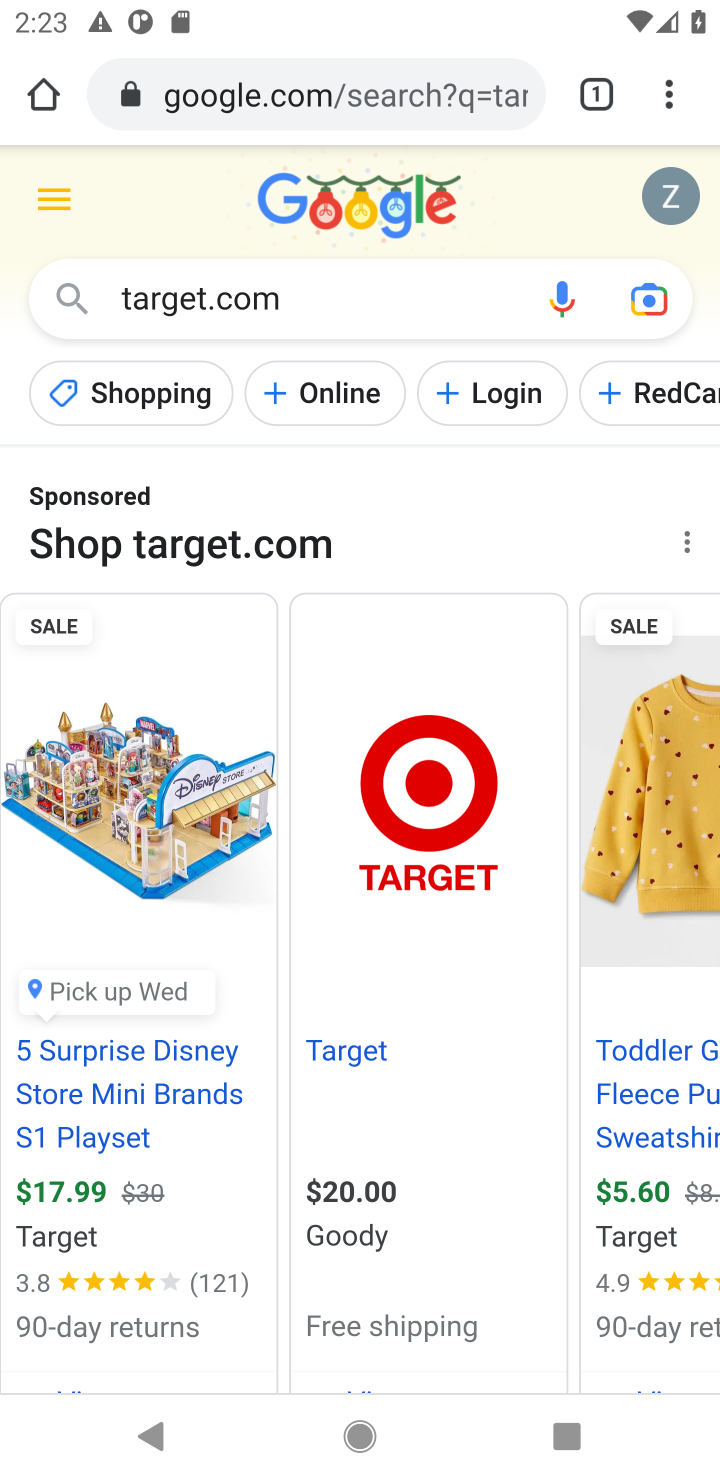
Step 31: drag from (152, 1080) to (515, 486)
Your task to perform on an android device: Search for "razer thresher" on target, select the first entry, and add it to the cart. Image 32: 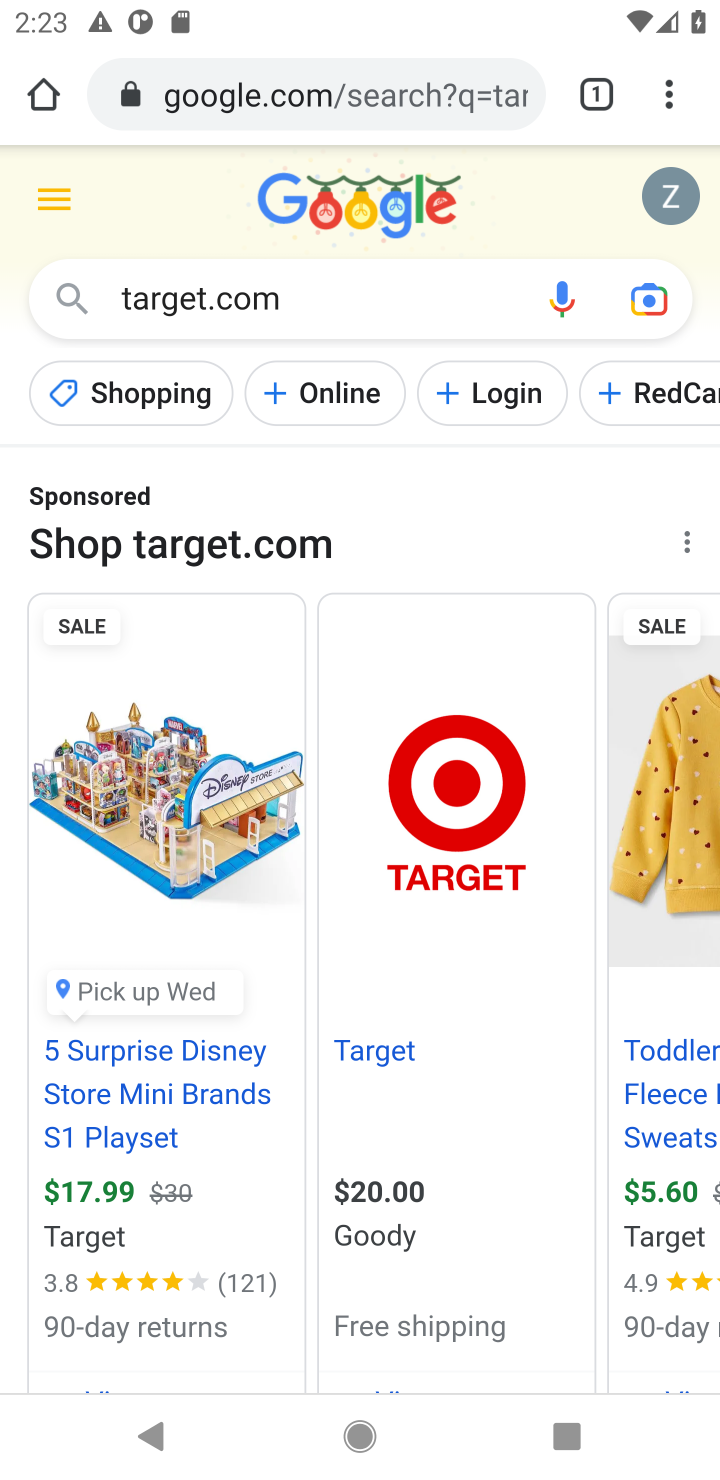
Step 32: click (359, 284)
Your task to perform on an android device: Search for "razer thresher" on target, select the first entry, and add it to the cart. Image 33: 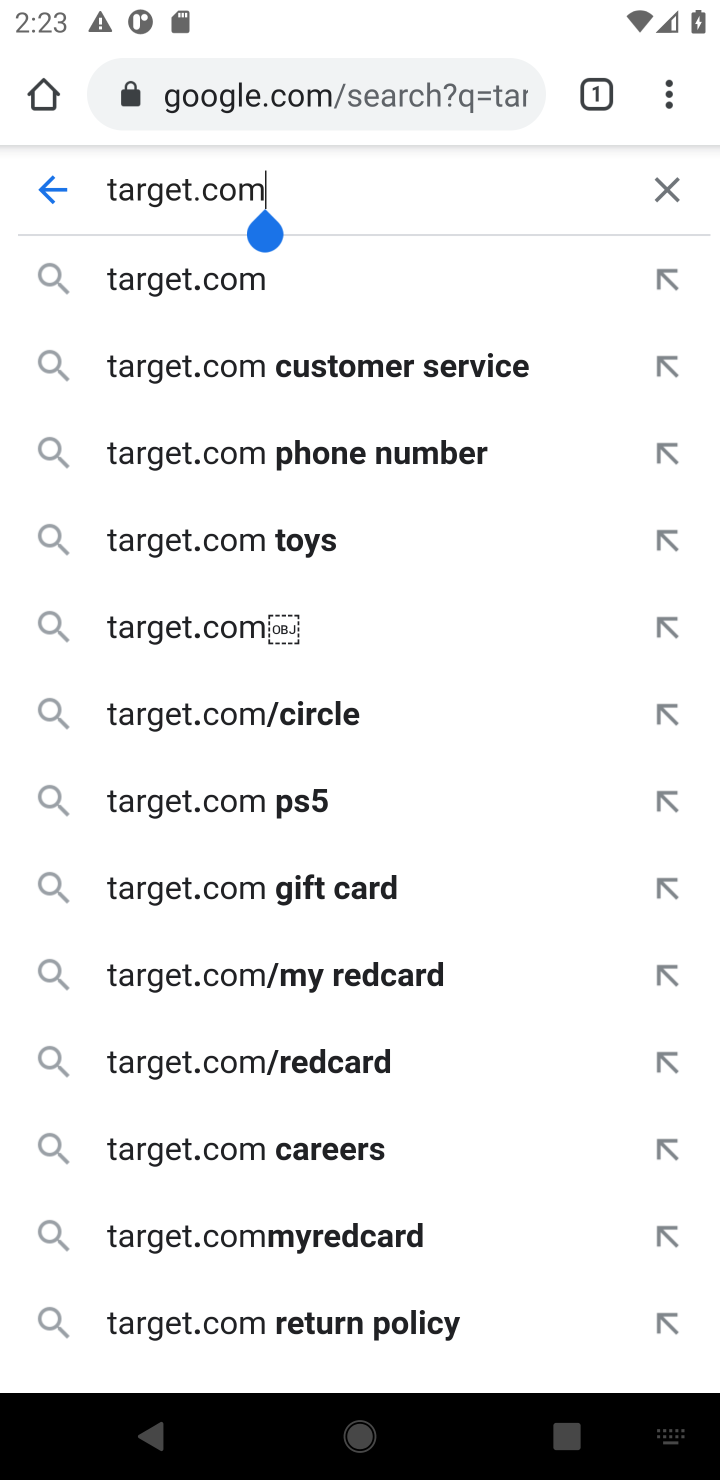
Step 33: click (253, 278)
Your task to perform on an android device: Search for "razer thresher" on target, select the first entry, and add it to the cart. Image 34: 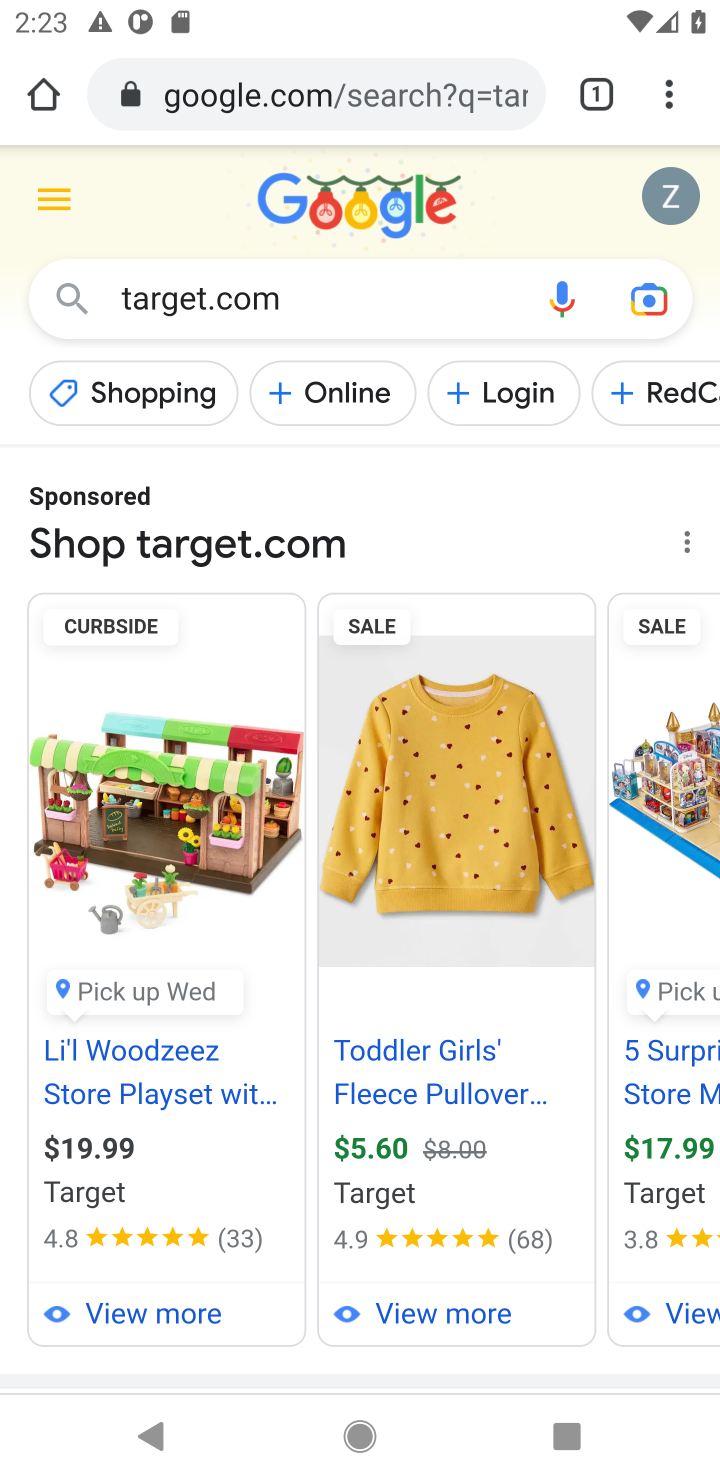
Step 34: click (447, 105)
Your task to perform on an android device: Search for "razer thresher" on target, select the first entry, and add it to the cart. Image 35: 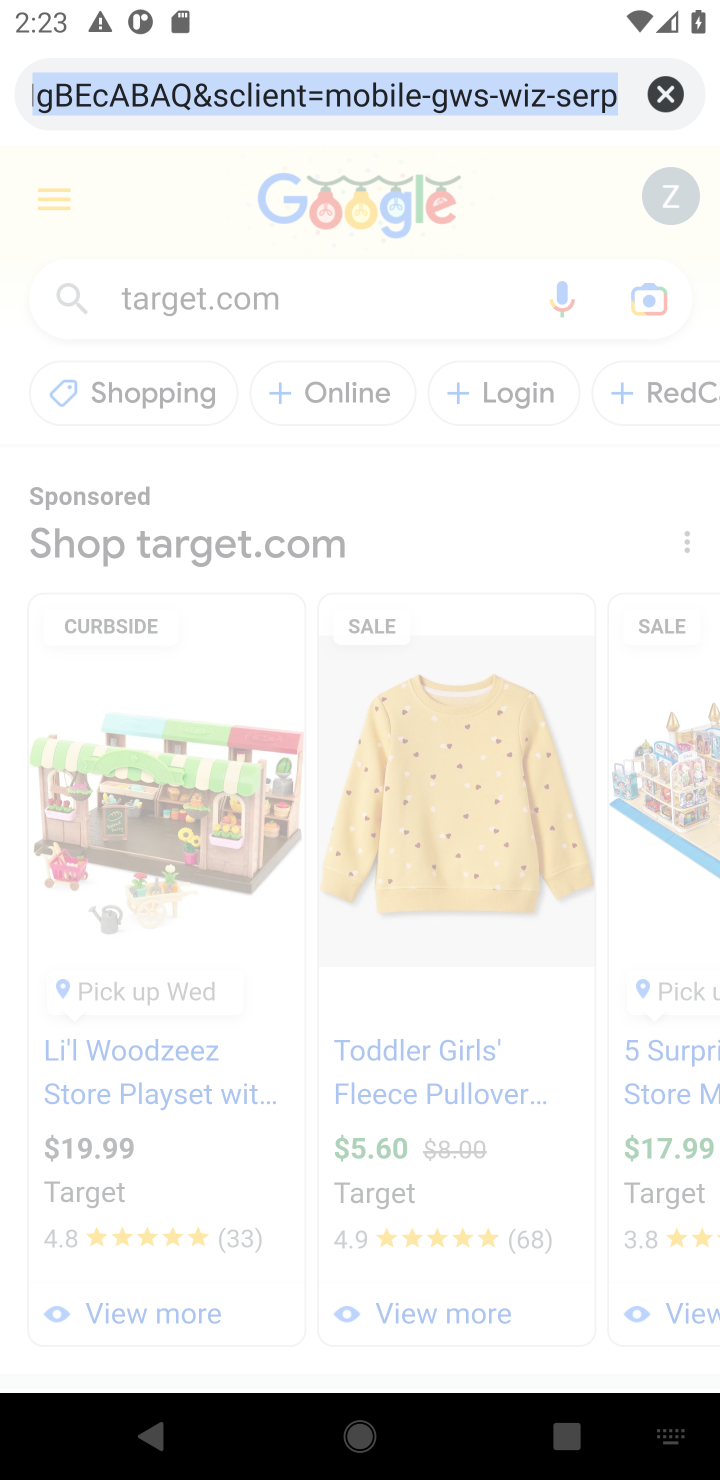
Step 35: type "razer thresher" on target,"
Your task to perform on an android device: Search for "razer thresher" on target, select the first entry, and add it to the cart. Image 36: 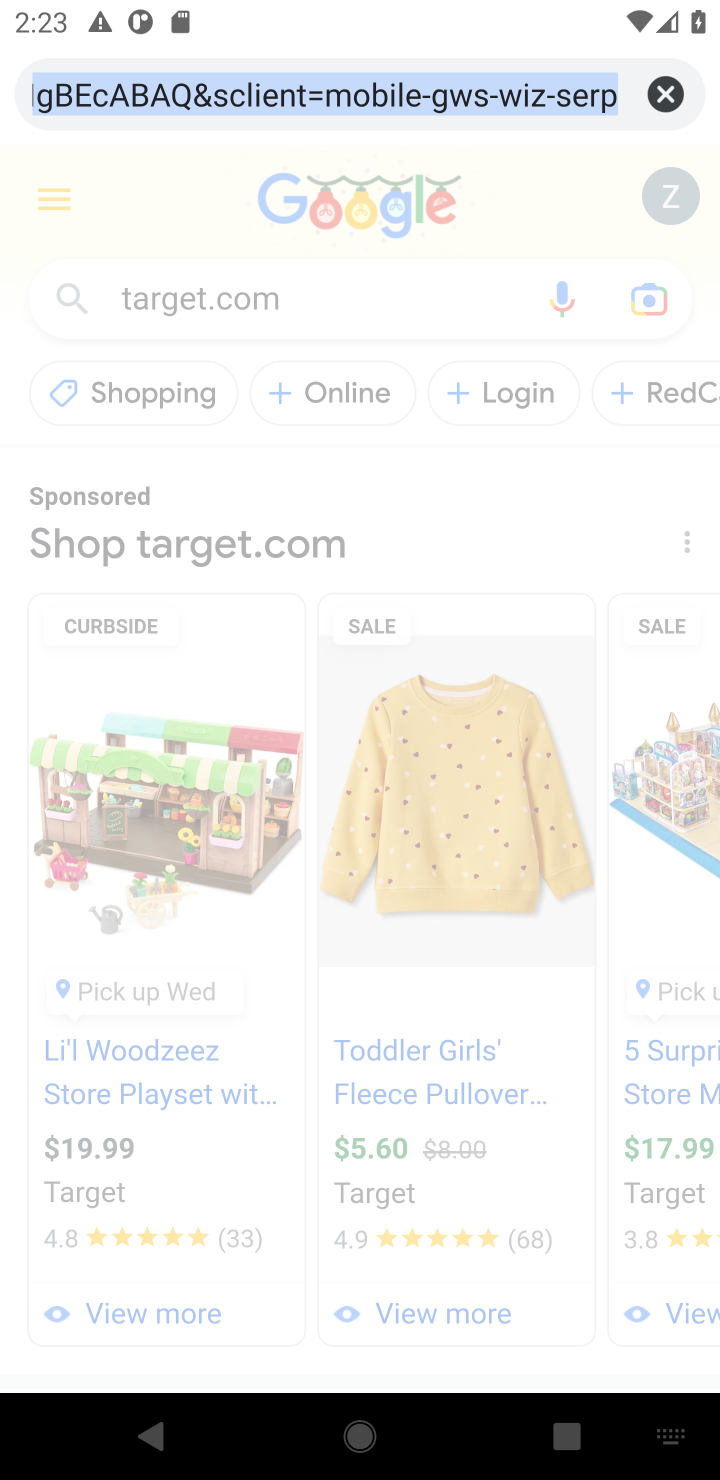
Step 36: press enter
Your task to perform on an android device: Search for "razer thresher" on target, select the first entry, and add it to the cart. Image 37: 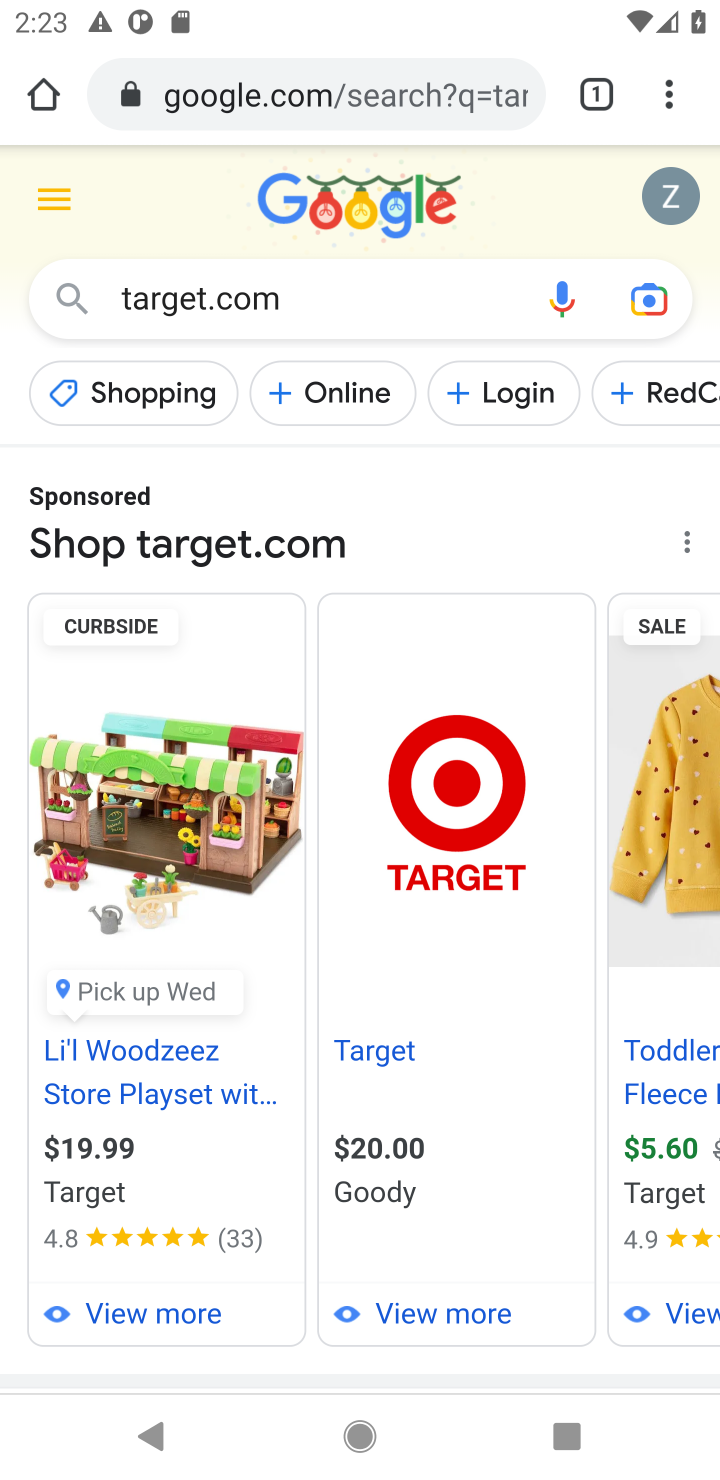
Step 37: drag from (109, 872) to (465, 290)
Your task to perform on an android device: Search for "razer thresher" on target, select the first entry, and add it to the cart. Image 38: 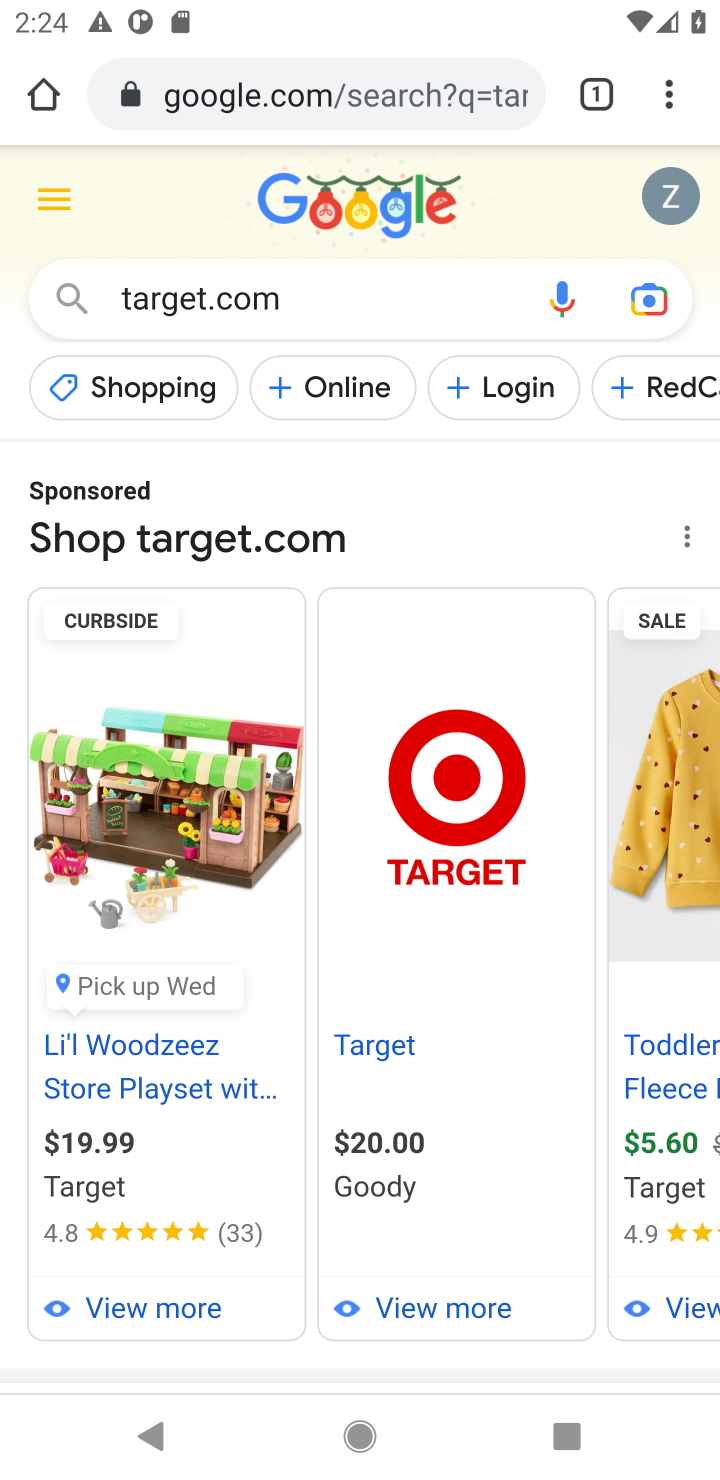
Step 38: drag from (256, 999) to (447, 650)
Your task to perform on an android device: Search for "razer thresher" on target, select the first entry, and add it to the cart. Image 39: 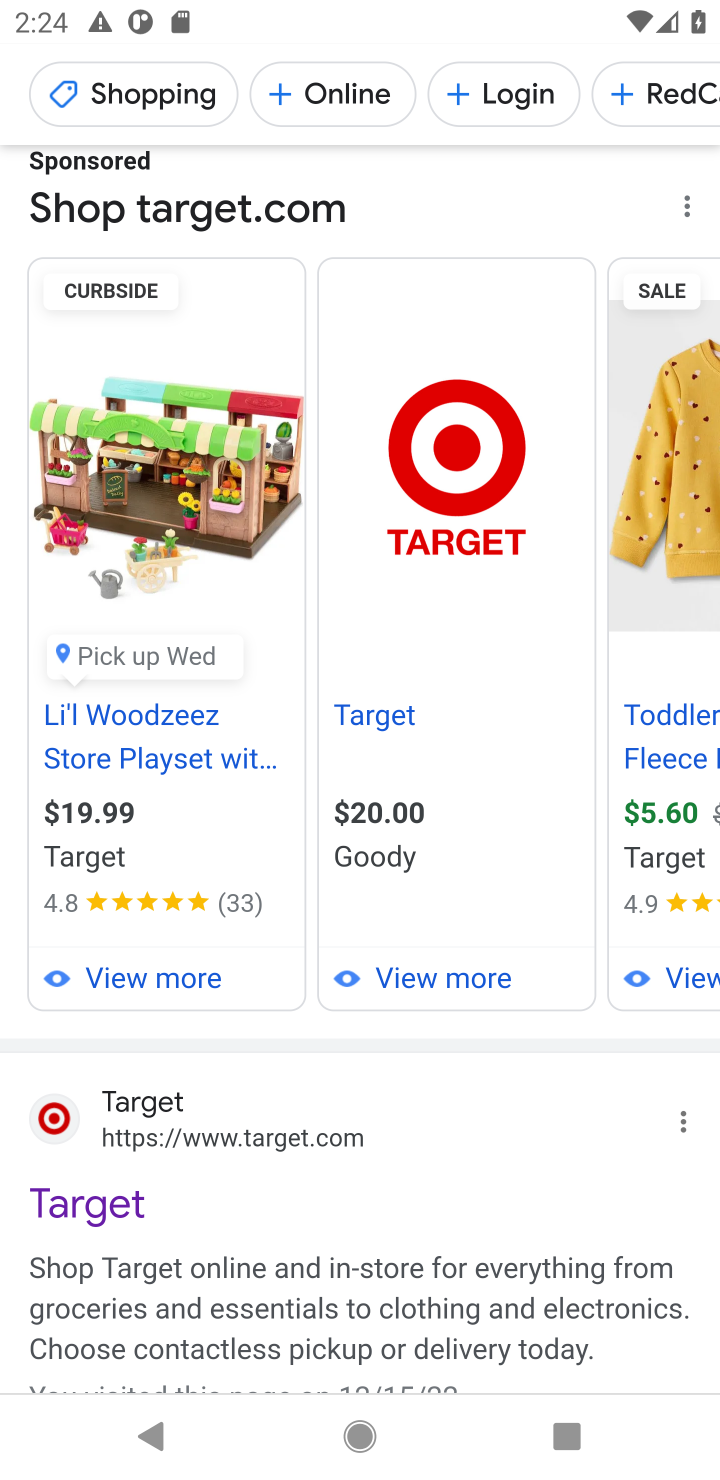
Step 39: click (170, 1137)
Your task to perform on an android device: Search for "razer thresher" on target, select the first entry, and add it to the cart. Image 40: 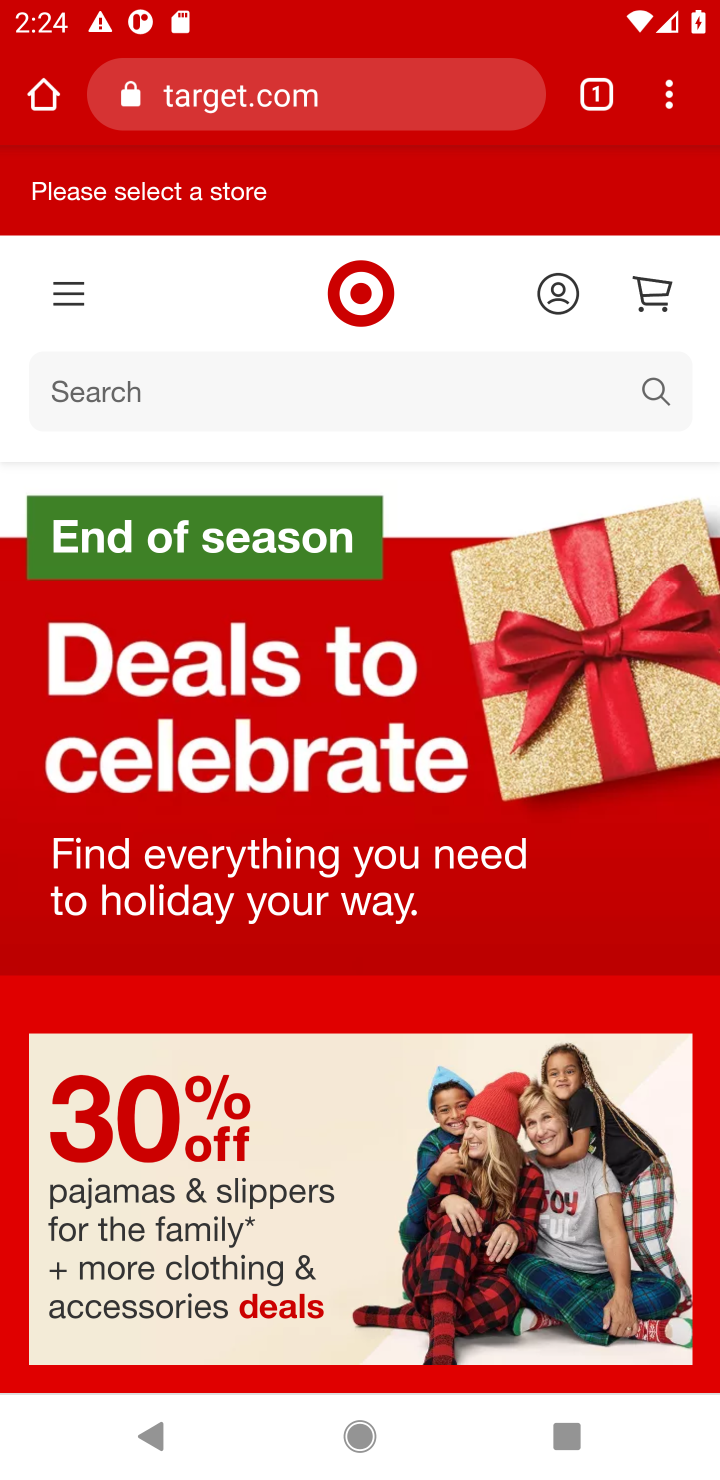
Step 40: click (640, 389)
Your task to perform on an android device: Search for "razer thresher" on target, select the first entry, and add it to the cart. Image 41: 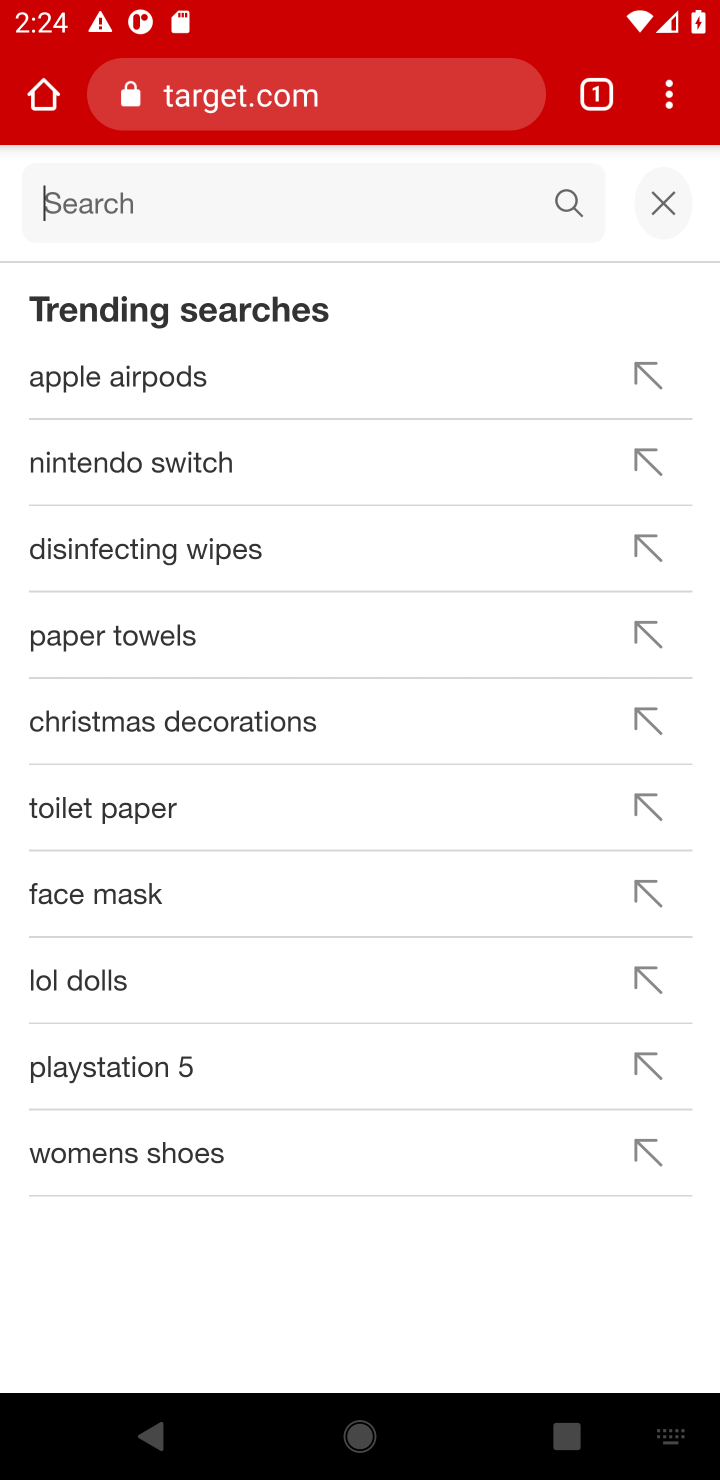
Step 41: type "razer thresher"
Your task to perform on an android device: Search for "razer thresher" on target, select the first entry, and add it to the cart. Image 42: 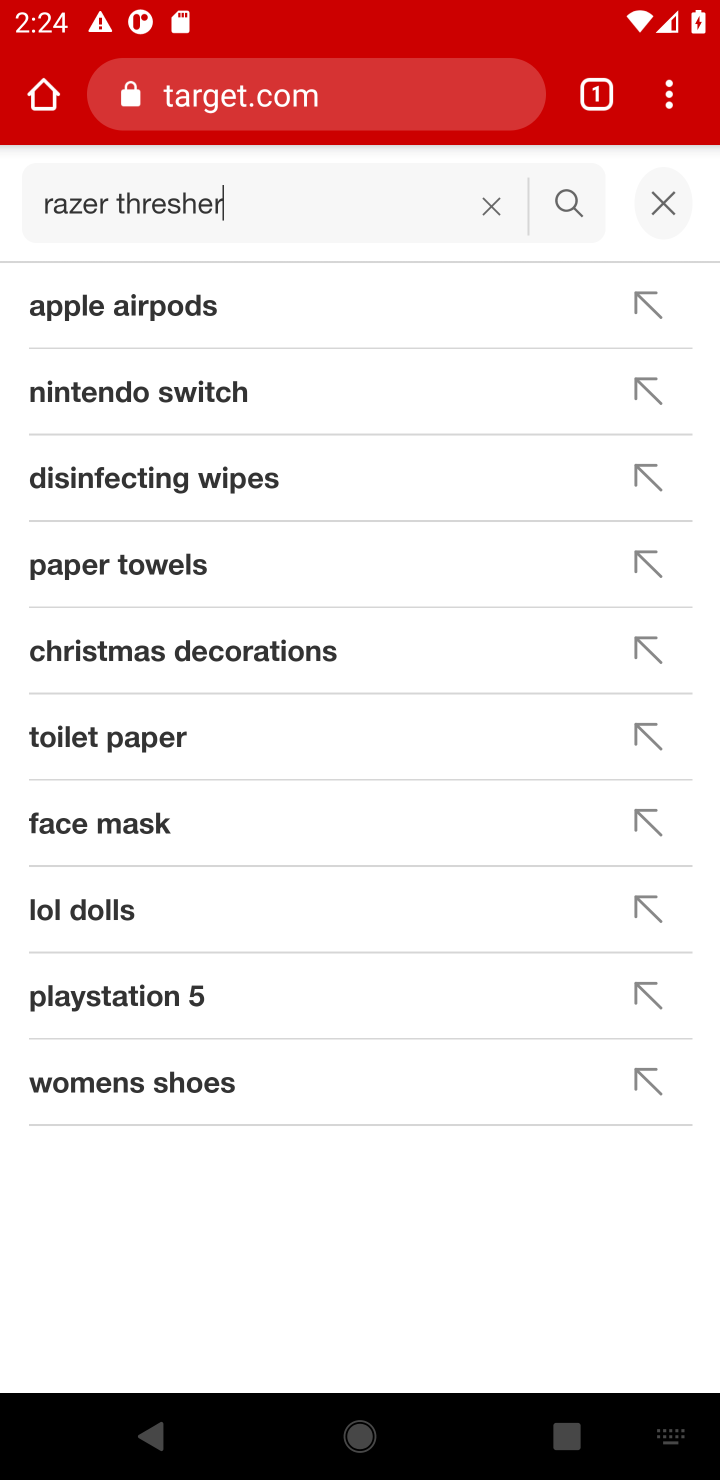
Step 42: press enter
Your task to perform on an android device: Search for "razer thresher" on target, select the first entry, and add it to the cart. Image 43: 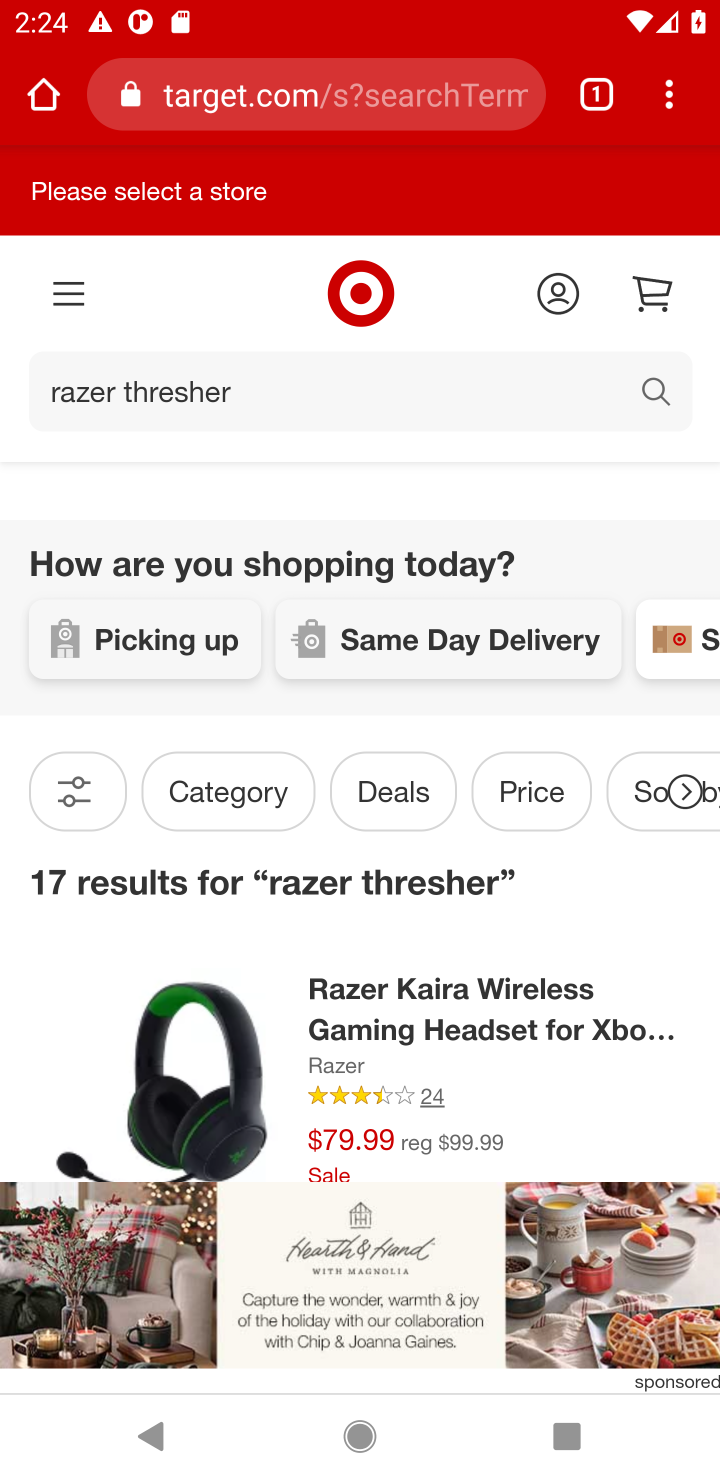
Step 43: task complete